Your task to perform on an android device: Search for a 3d printer on aliexpress Image 0: 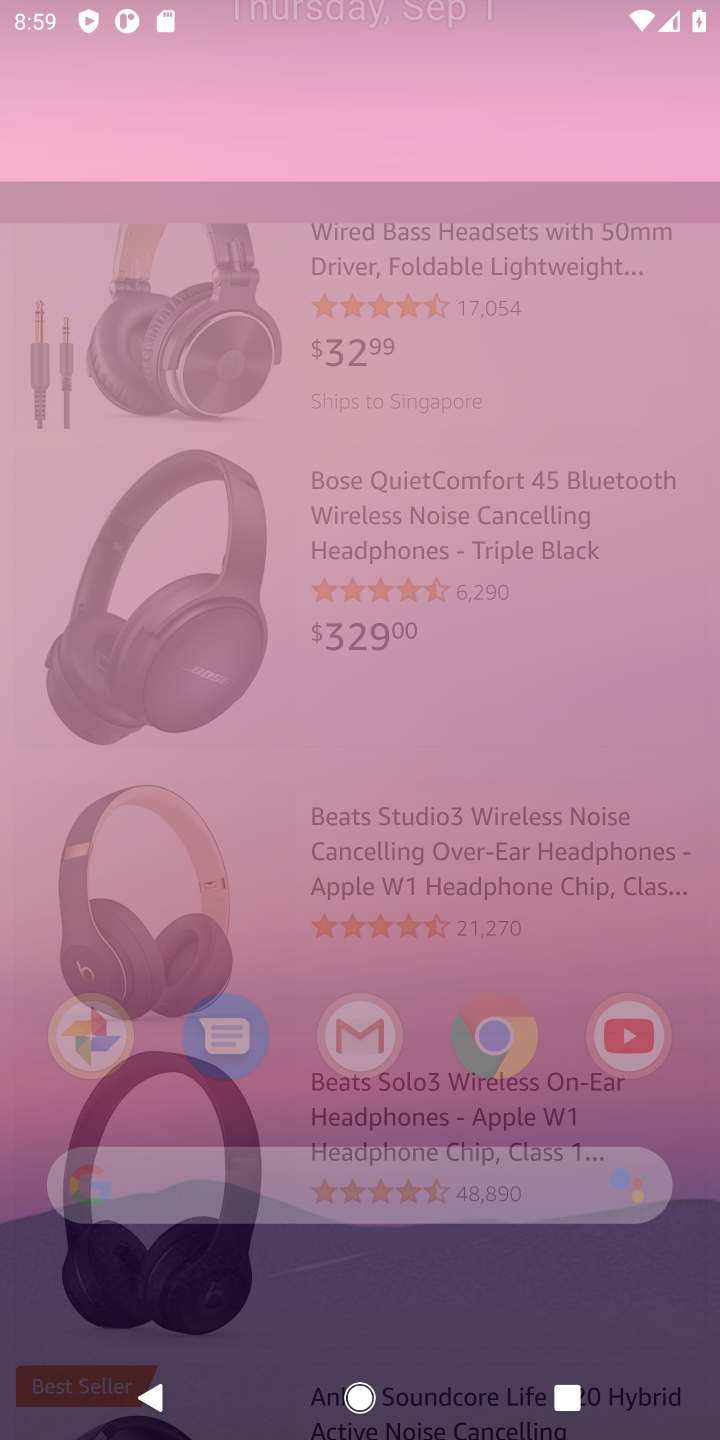
Step 0: press home button
Your task to perform on an android device: Search for a 3d printer on aliexpress Image 1: 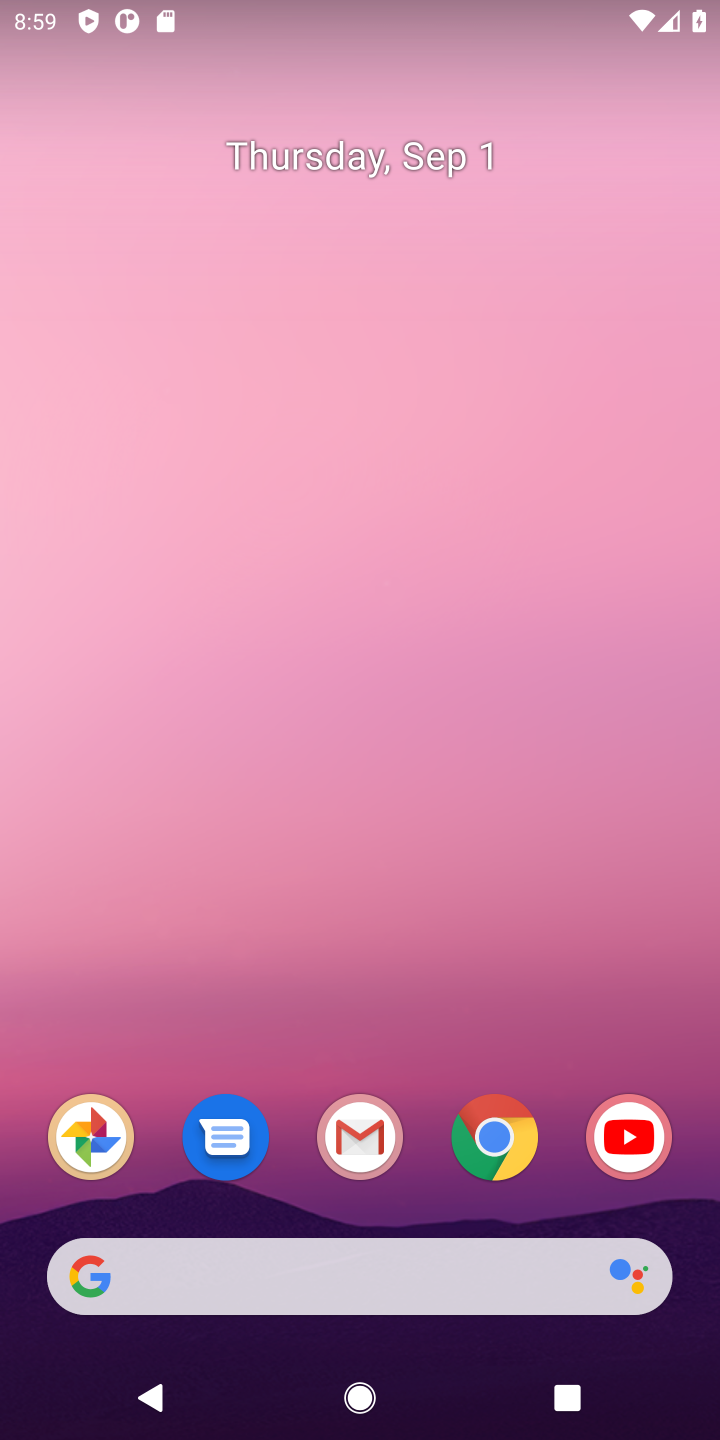
Step 1: drag from (427, 1096) to (353, 0)
Your task to perform on an android device: Search for a 3d printer on aliexpress Image 2: 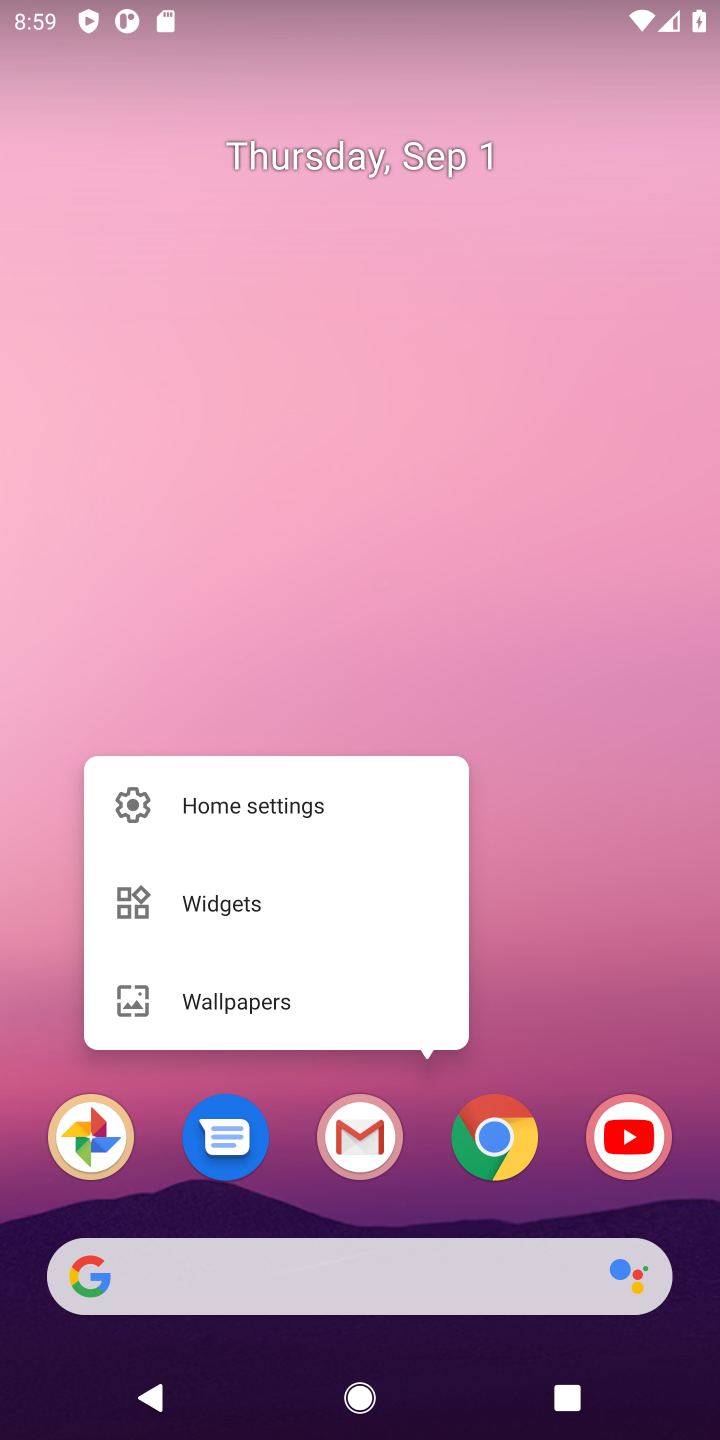
Step 2: drag from (564, 949) to (572, 151)
Your task to perform on an android device: Search for a 3d printer on aliexpress Image 3: 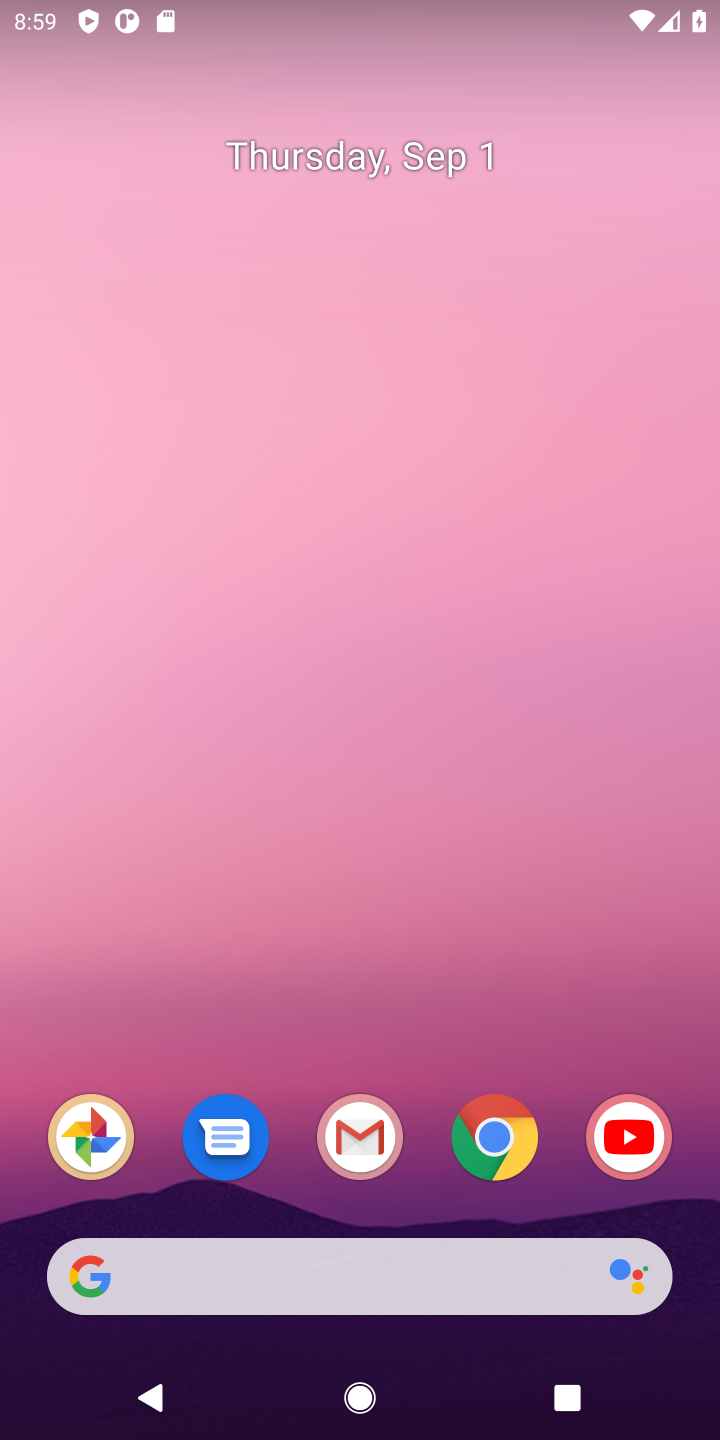
Step 3: drag from (438, 984) to (432, 6)
Your task to perform on an android device: Search for a 3d printer on aliexpress Image 4: 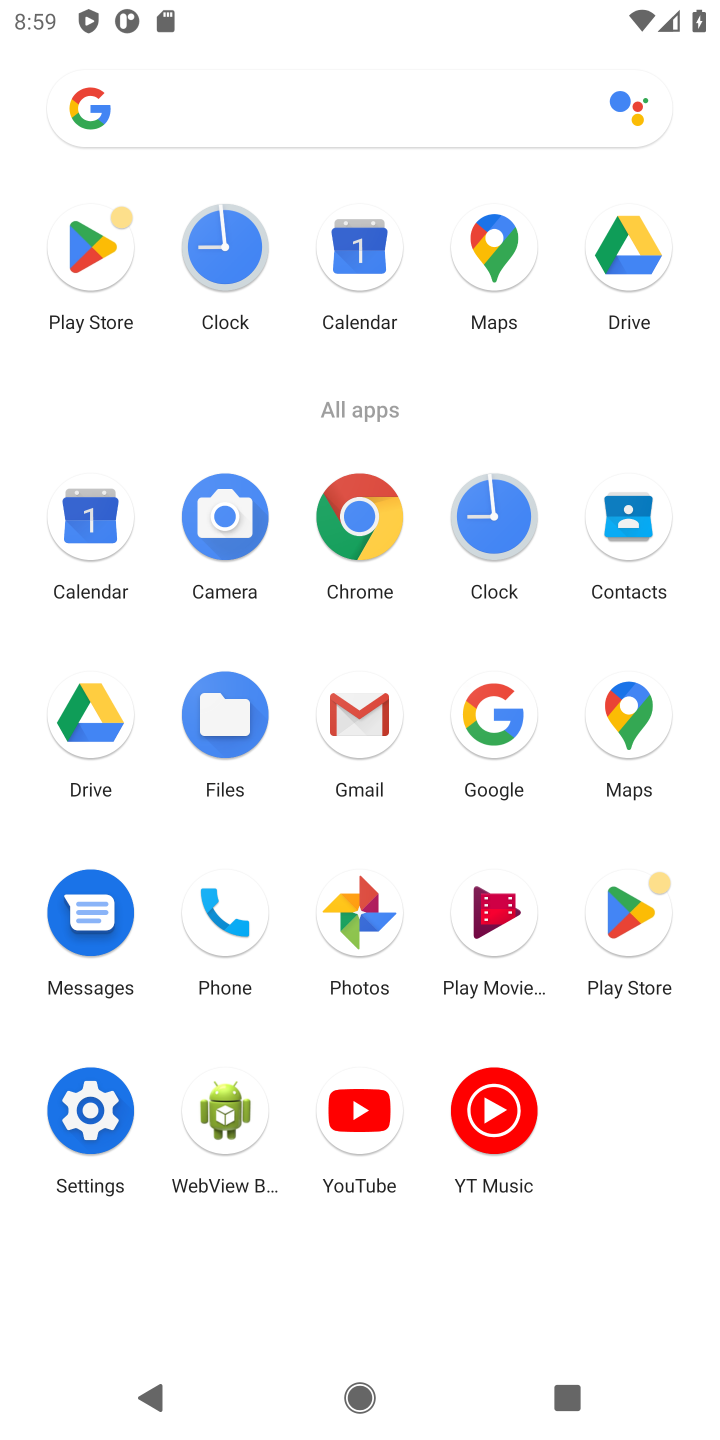
Step 4: click (349, 504)
Your task to perform on an android device: Search for a 3d printer on aliexpress Image 5: 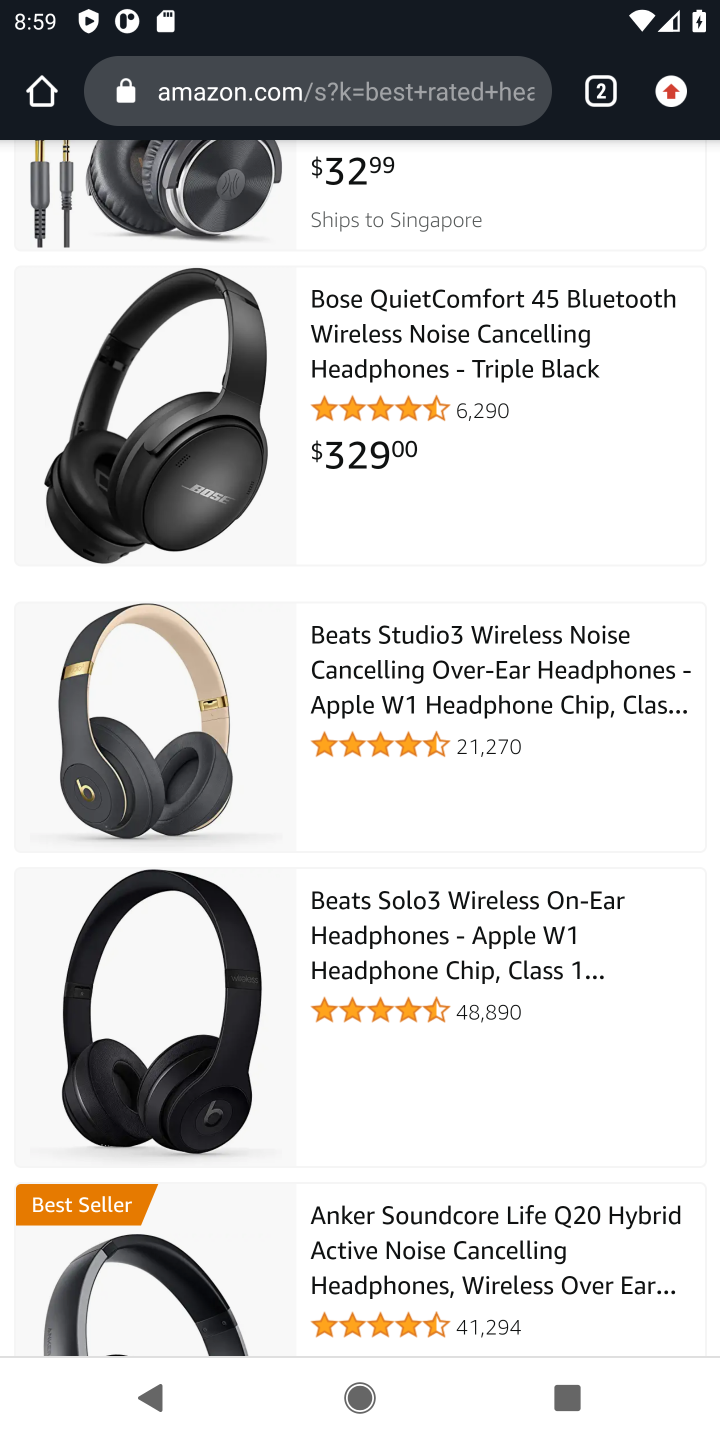
Step 5: click (318, 93)
Your task to perform on an android device: Search for a 3d printer on aliexpress Image 6: 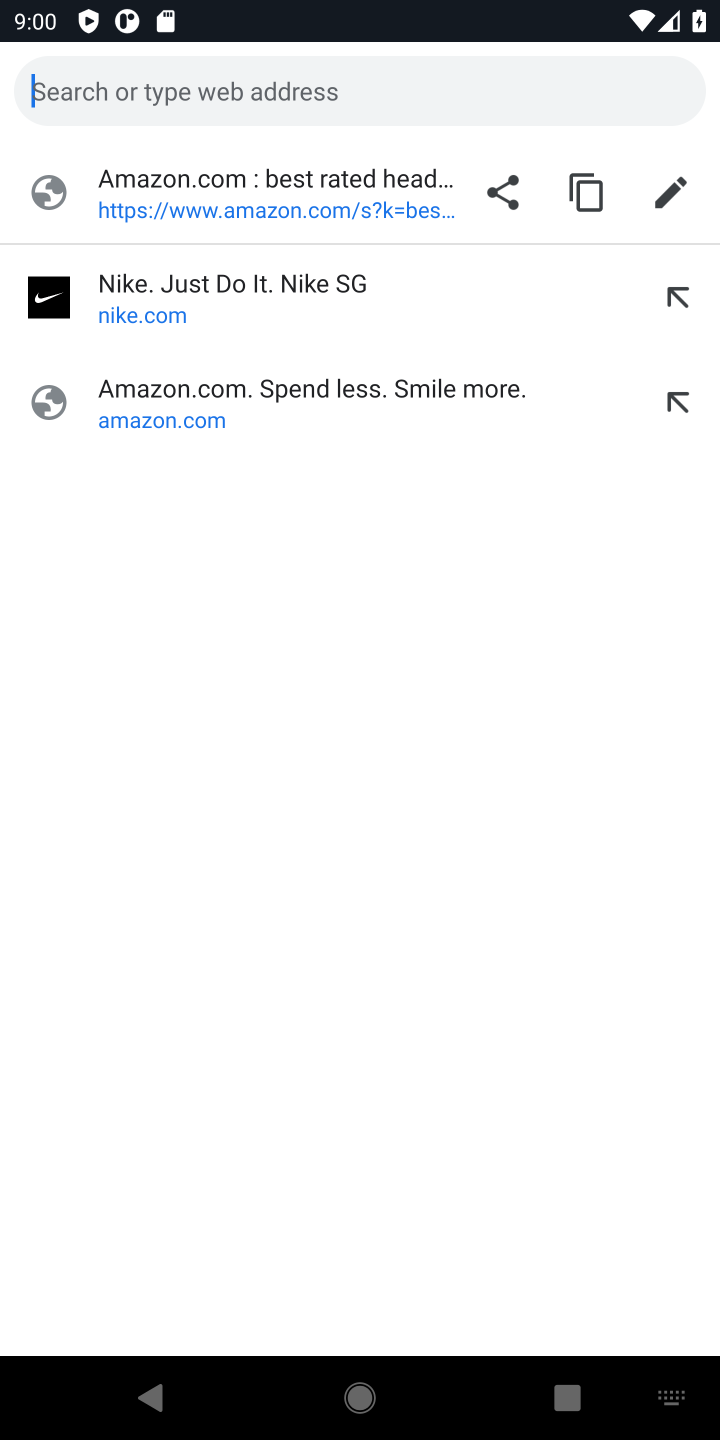
Step 6: type "aliexpress"
Your task to perform on an android device: Search for a 3d printer on aliexpress Image 7: 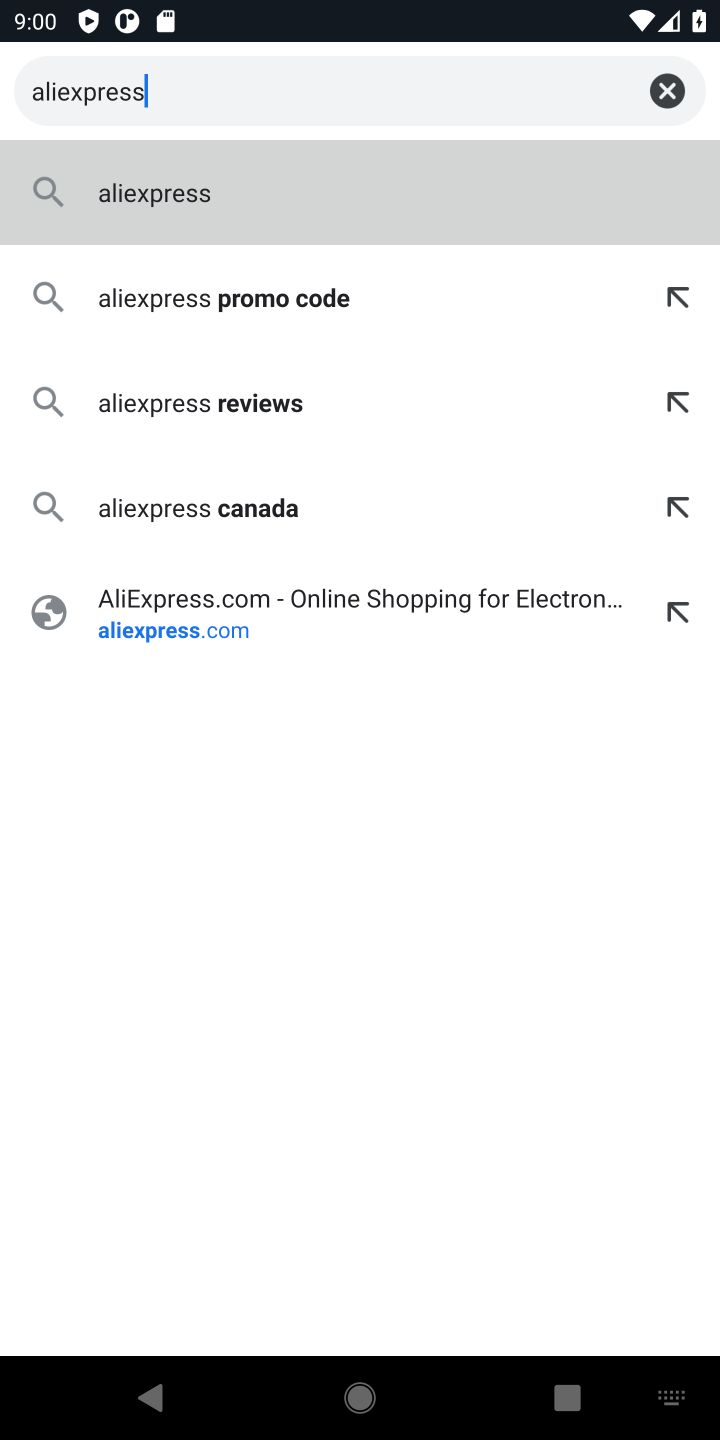
Step 7: click (242, 613)
Your task to perform on an android device: Search for a 3d printer on aliexpress Image 8: 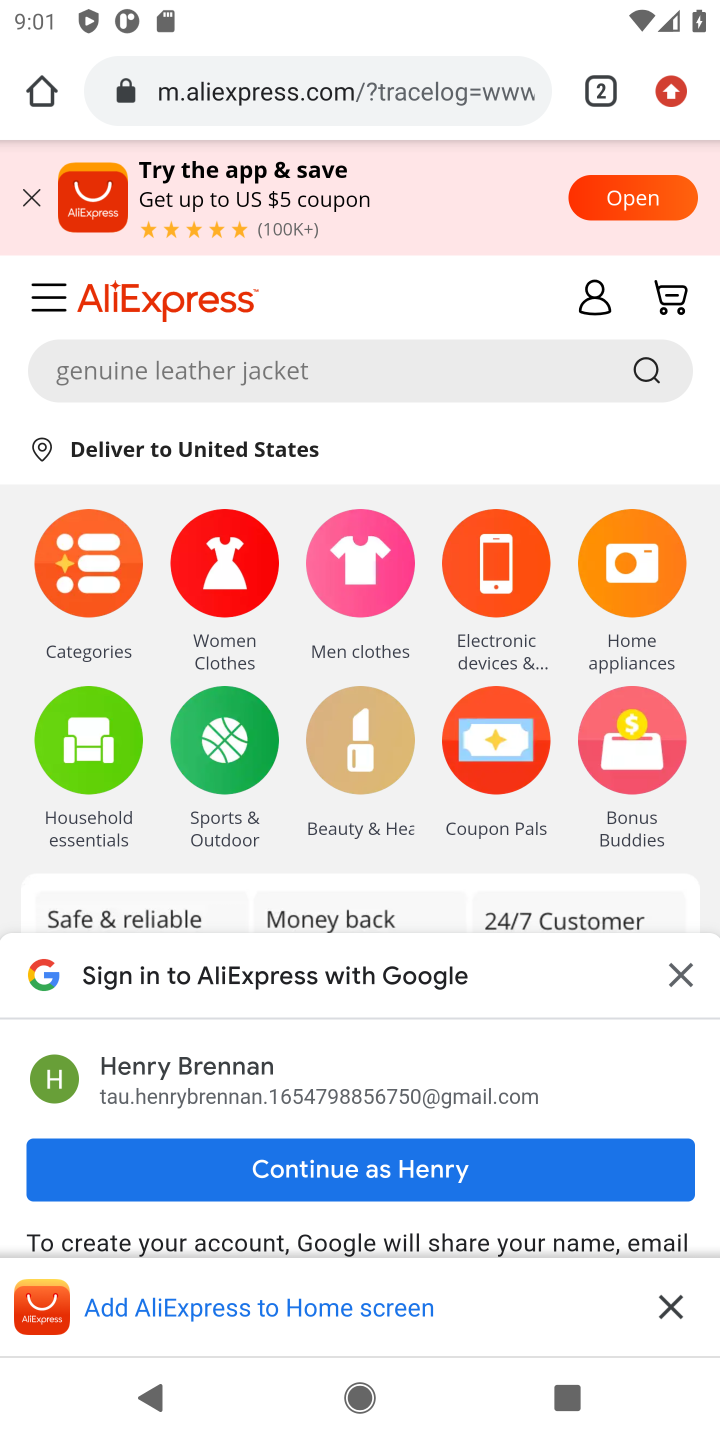
Step 8: click (638, 356)
Your task to perform on an android device: Search for a 3d printer on aliexpress Image 9: 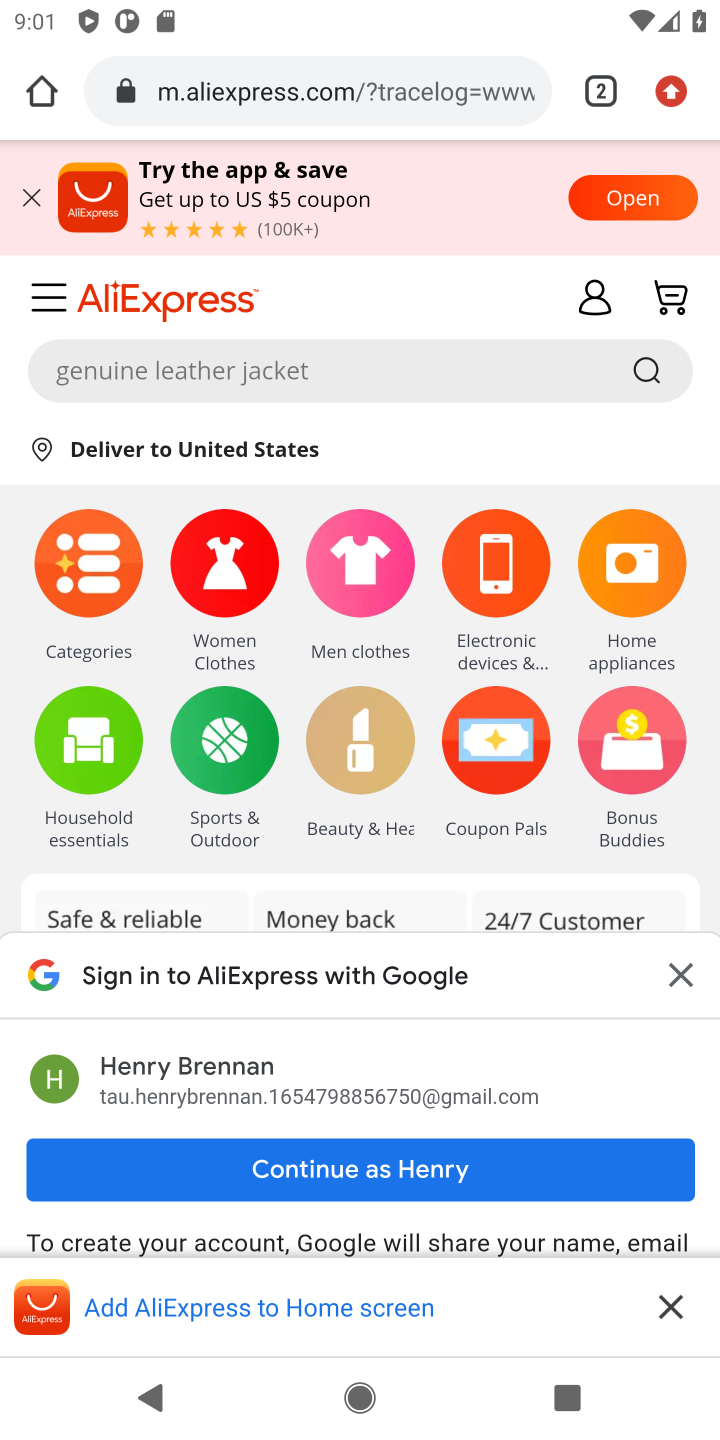
Step 9: click (674, 966)
Your task to perform on an android device: Search for a 3d printer on aliexpress Image 10: 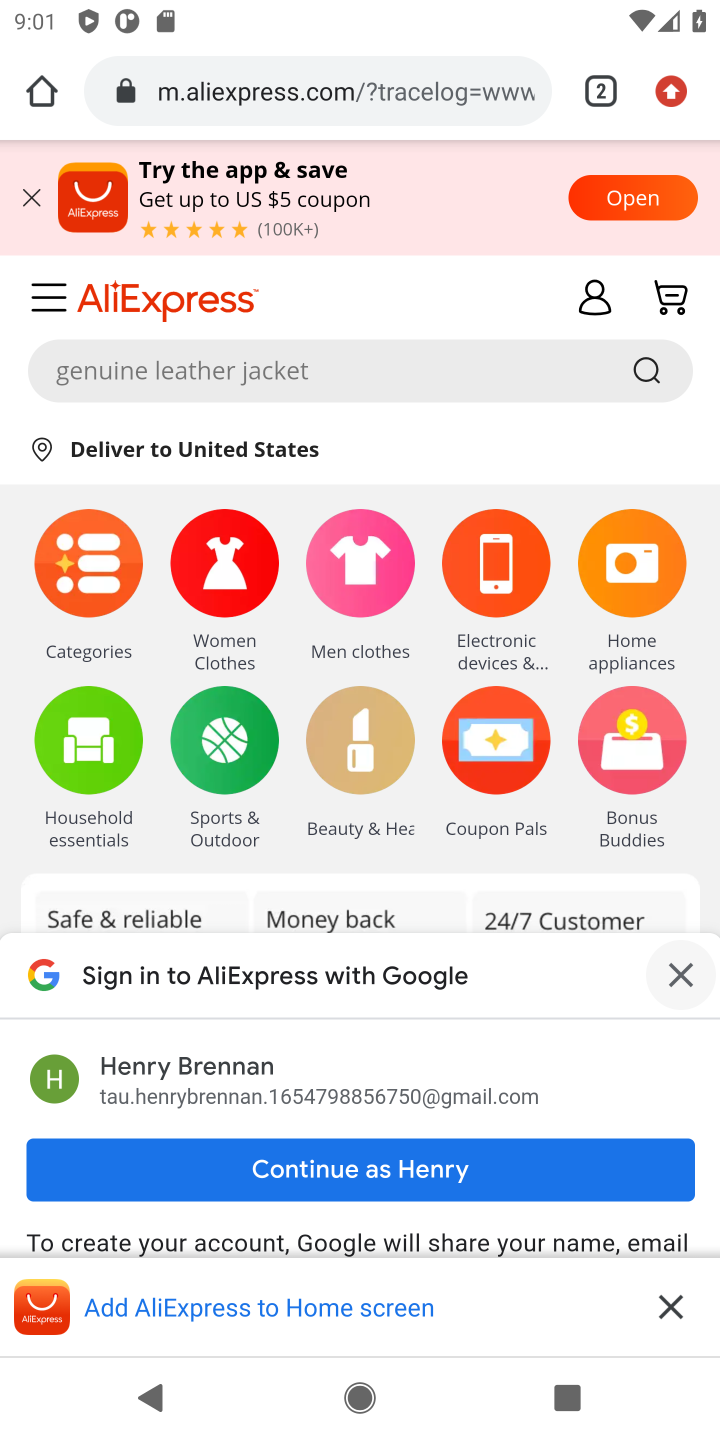
Step 10: click (137, 359)
Your task to perform on an android device: Search for a 3d printer on aliexpress Image 11: 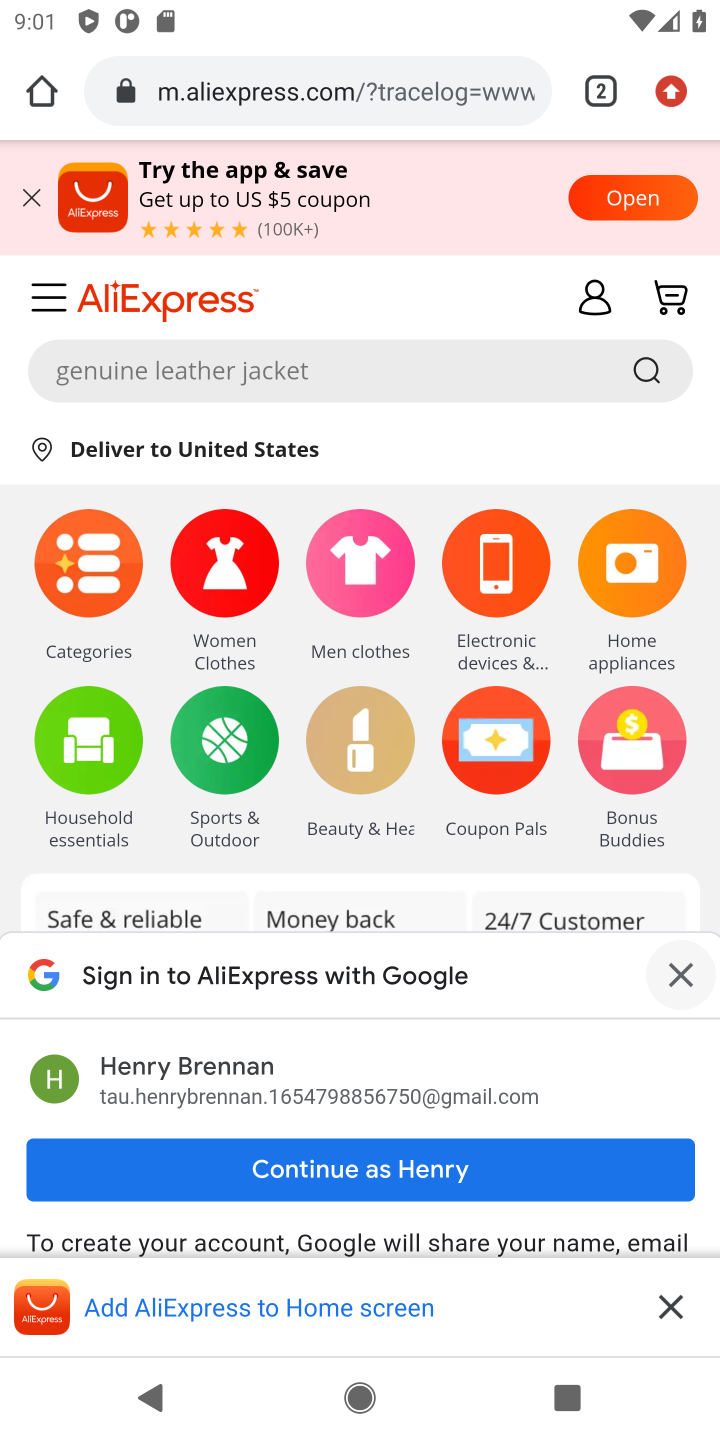
Step 11: click (634, 379)
Your task to perform on an android device: Search for a 3d printer on aliexpress Image 12: 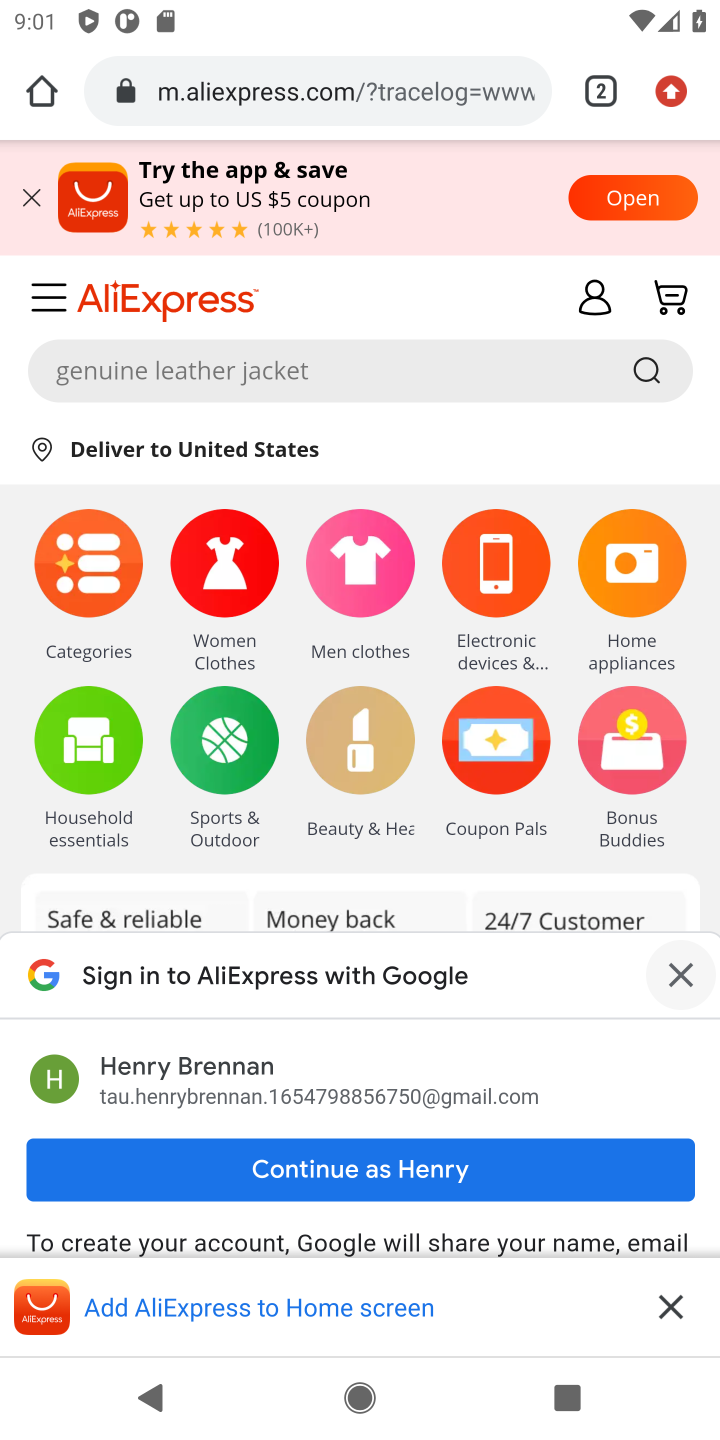
Step 12: click (131, 370)
Your task to perform on an android device: Search for a 3d printer on aliexpress Image 13: 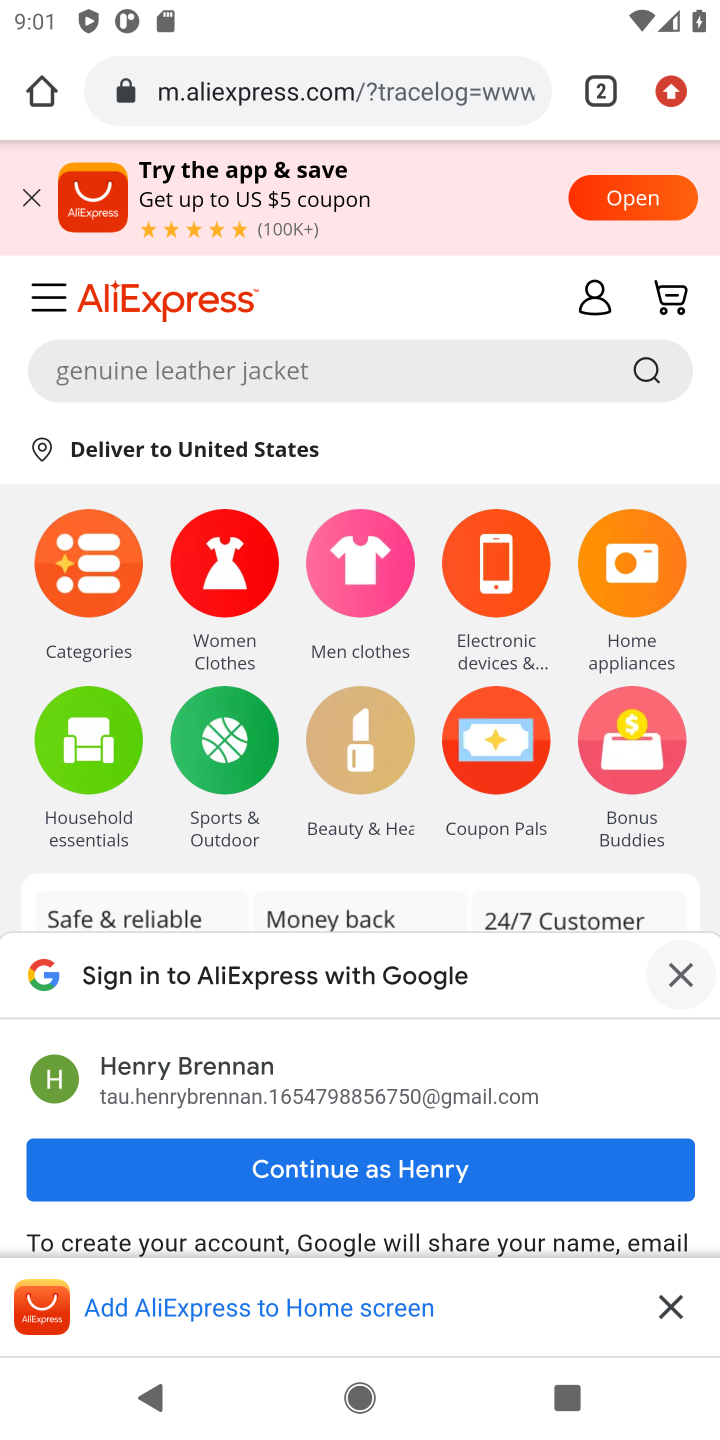
Step 13: click (671, 974)
Your task to perform on an android device: Search for a 3d printer on aliexpress Image 14: 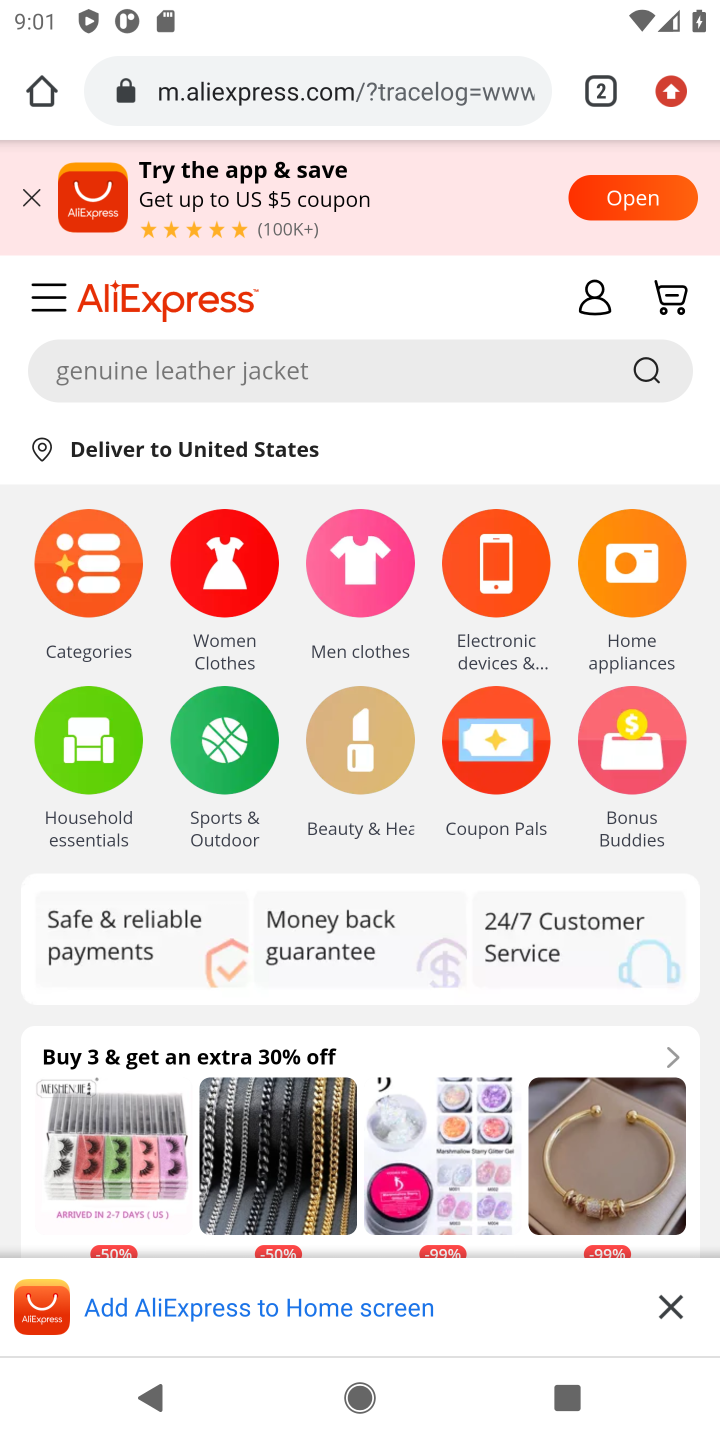
Step 14: drag from (392, 1031) to (414, 445)
Your task to perform on an android device: Search for a 3d printer on aliexpress Image 15: 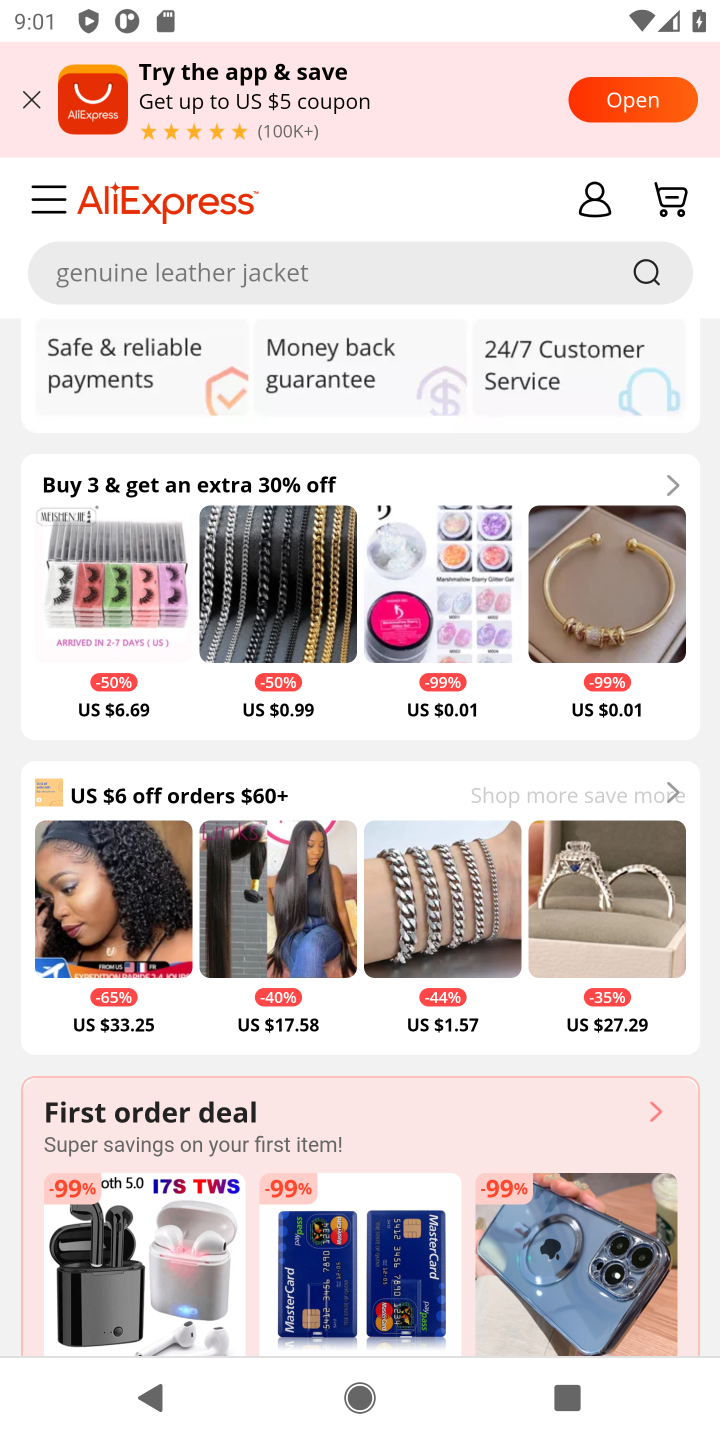
Step 15: click (640, 259)
Your task to perform on an android device: Search for a 3d printer on aliexpress Image 16: 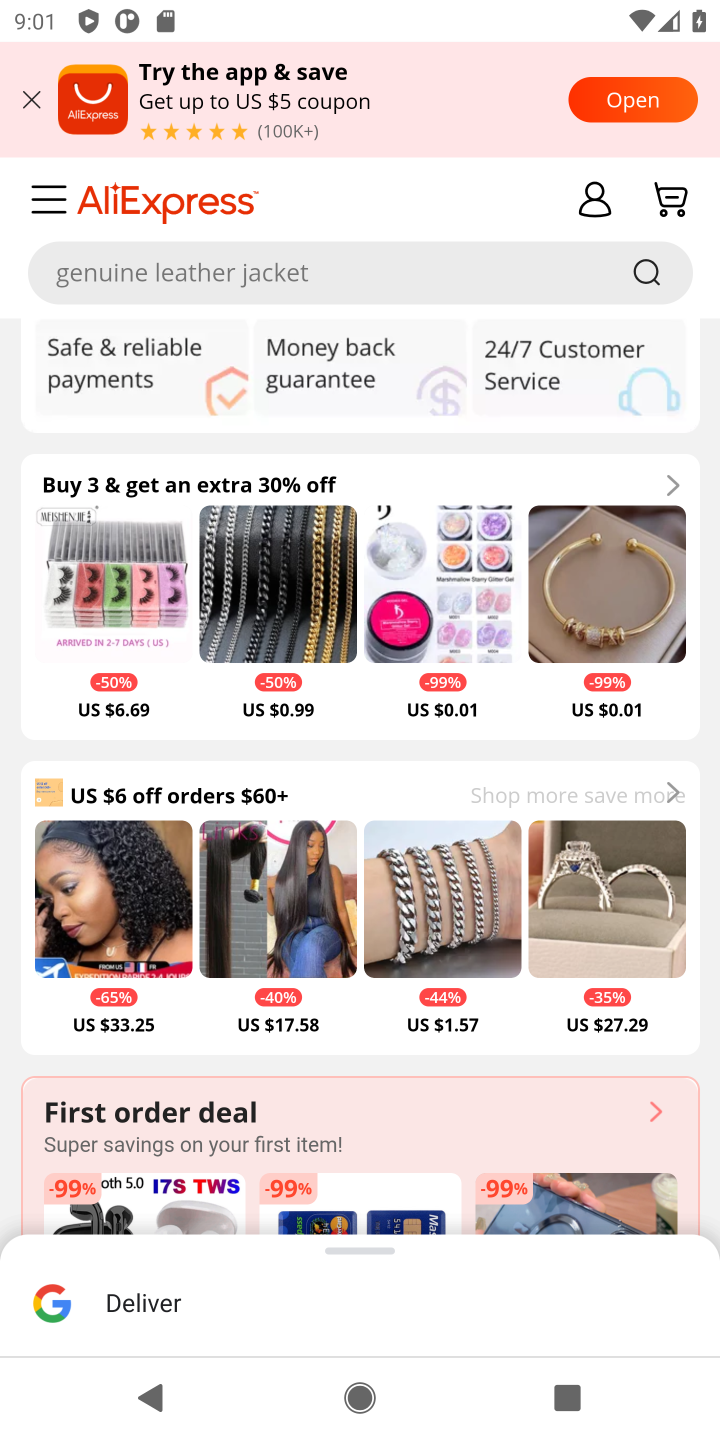
Step 16: click (180, 266)
Your task to perform on an android device: Search for a 3d printer on aliexpress Image 17: 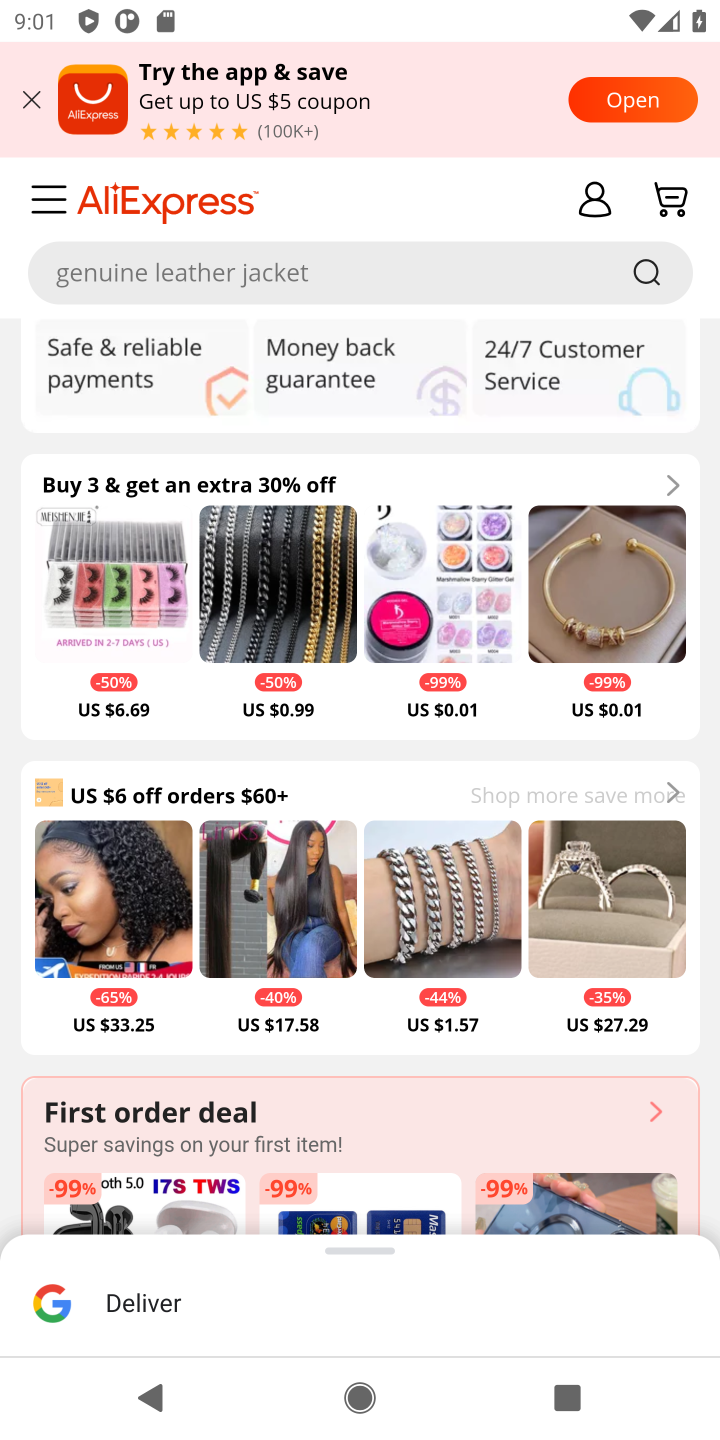
Step 17: click (144, 266)
Your task to perform on an android device: Search for a 3d printer on aliexpress Image 18: 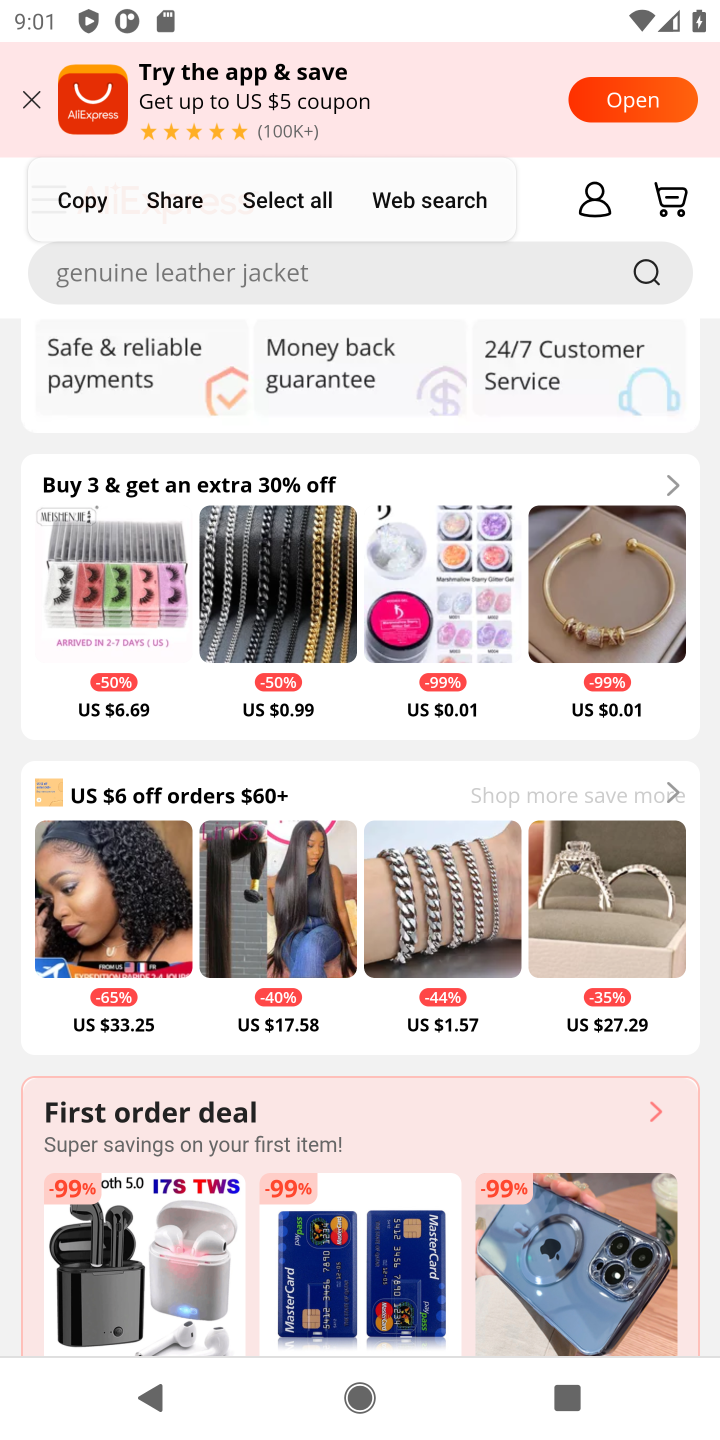
Step 18: click (338, 262)
Your task to perform on an android device: Search for a 3d printer on aliexpress Image 19: 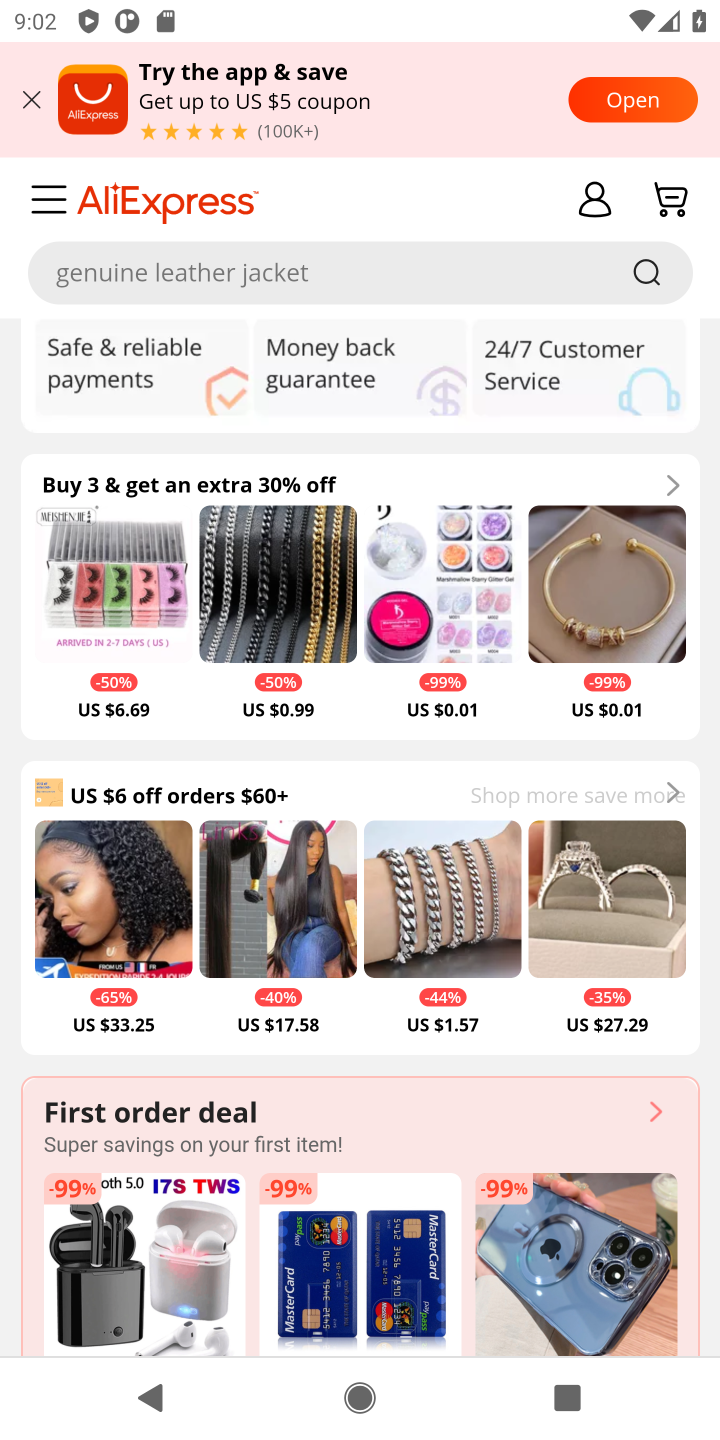
Step 19: drag from (401, 243) to (463, 772)
Your task to perform on an android device: Search for a 3d printer on aliexpress Image 20: 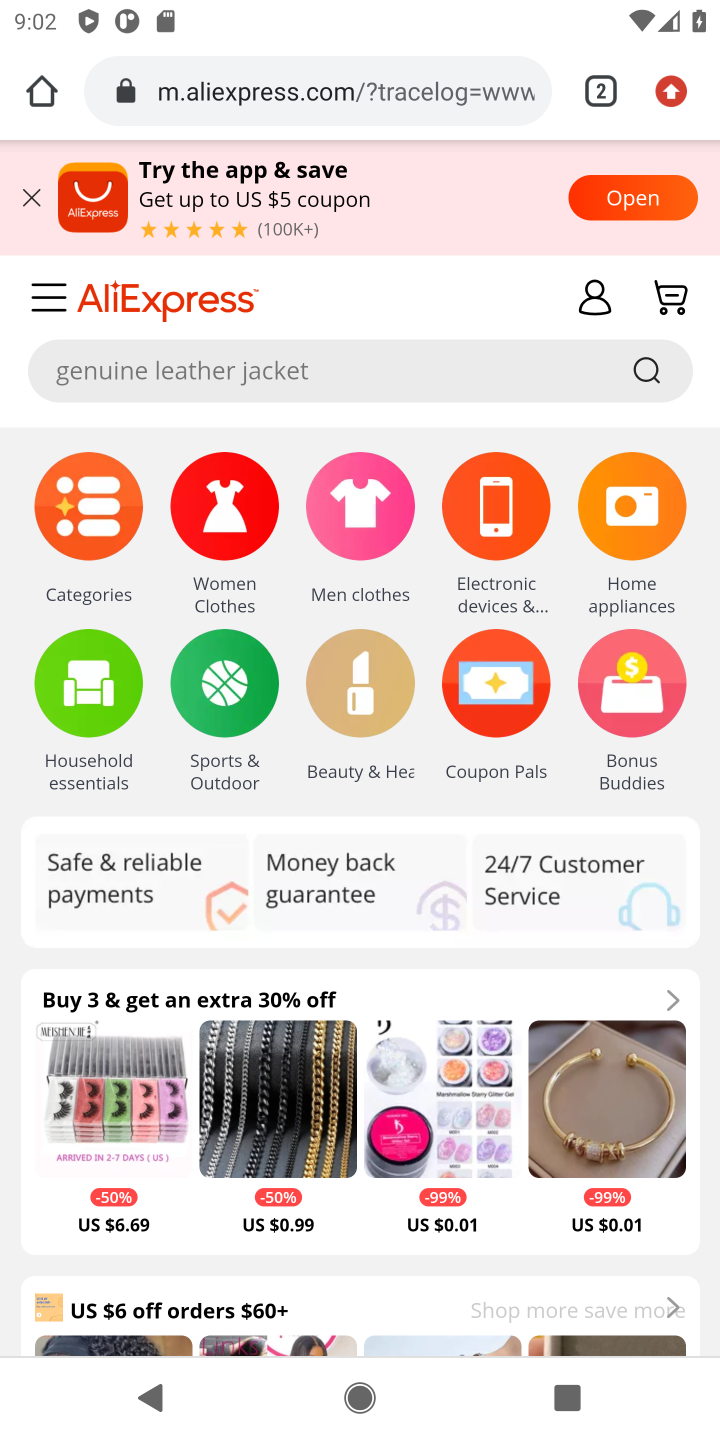
Step 20: click (283, 103)
Your task to perform on an android device: Search for a 3d printer on aliexpress Image 21: 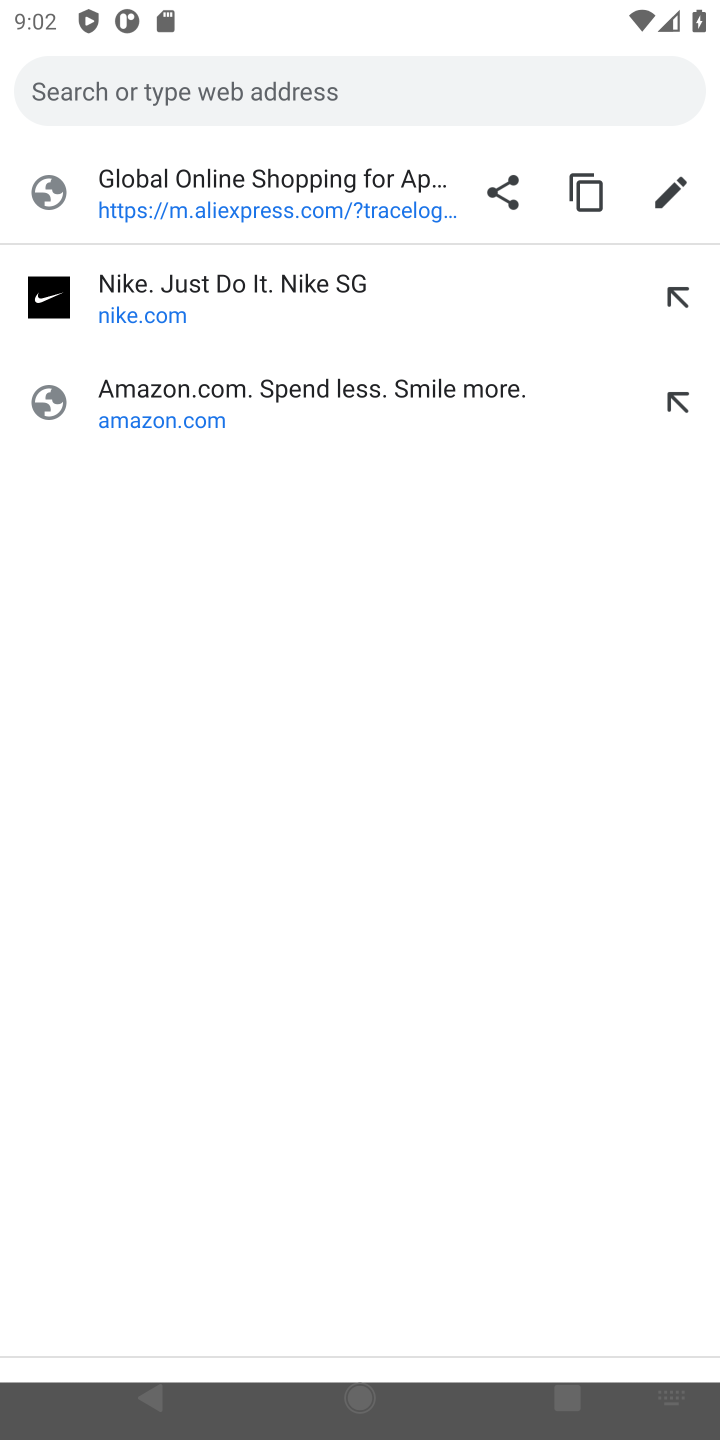
Step 21: click (343, 84)
Your task to perform on an android device: Search for a 3d printer on aliexpress Image 22: 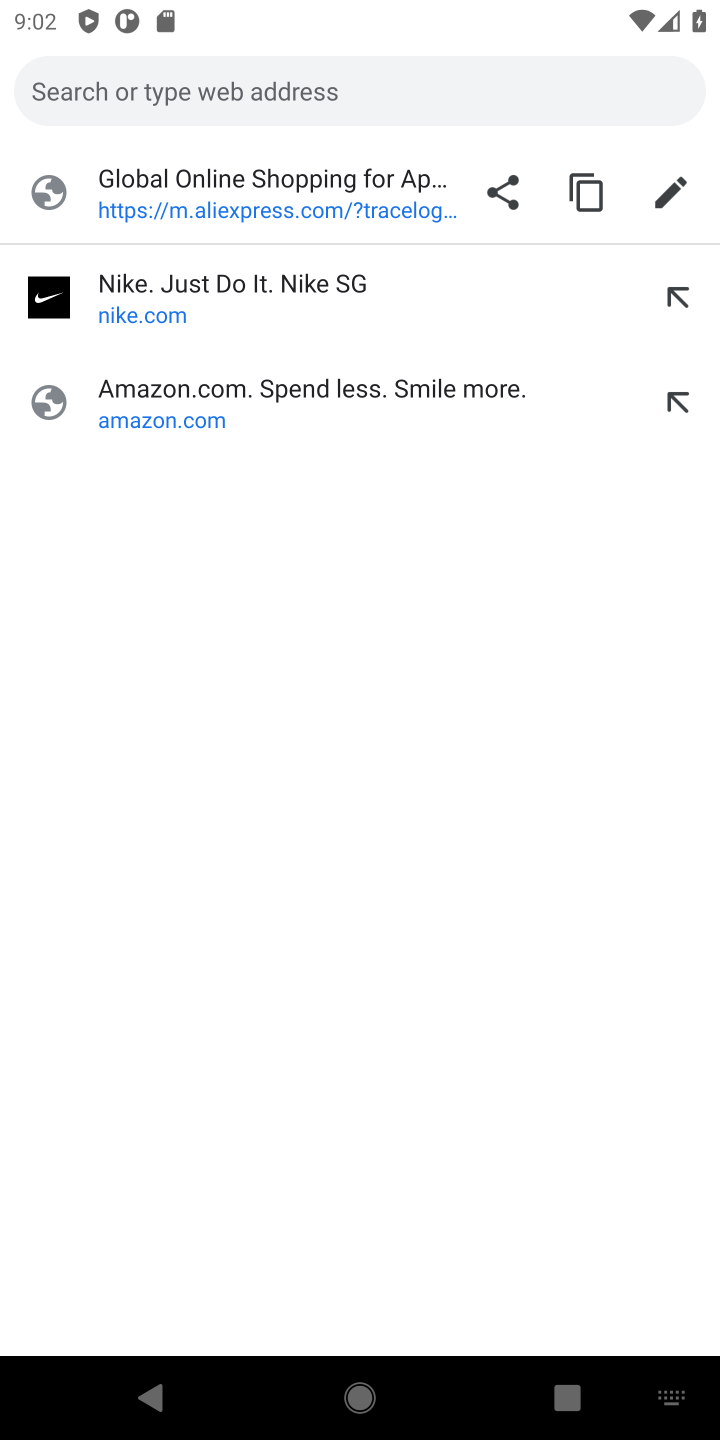
Step 22: type "3d printer on aliexpress"
Your task to perform on an android device: Search for a 3d printer on aliexpress Image 23: 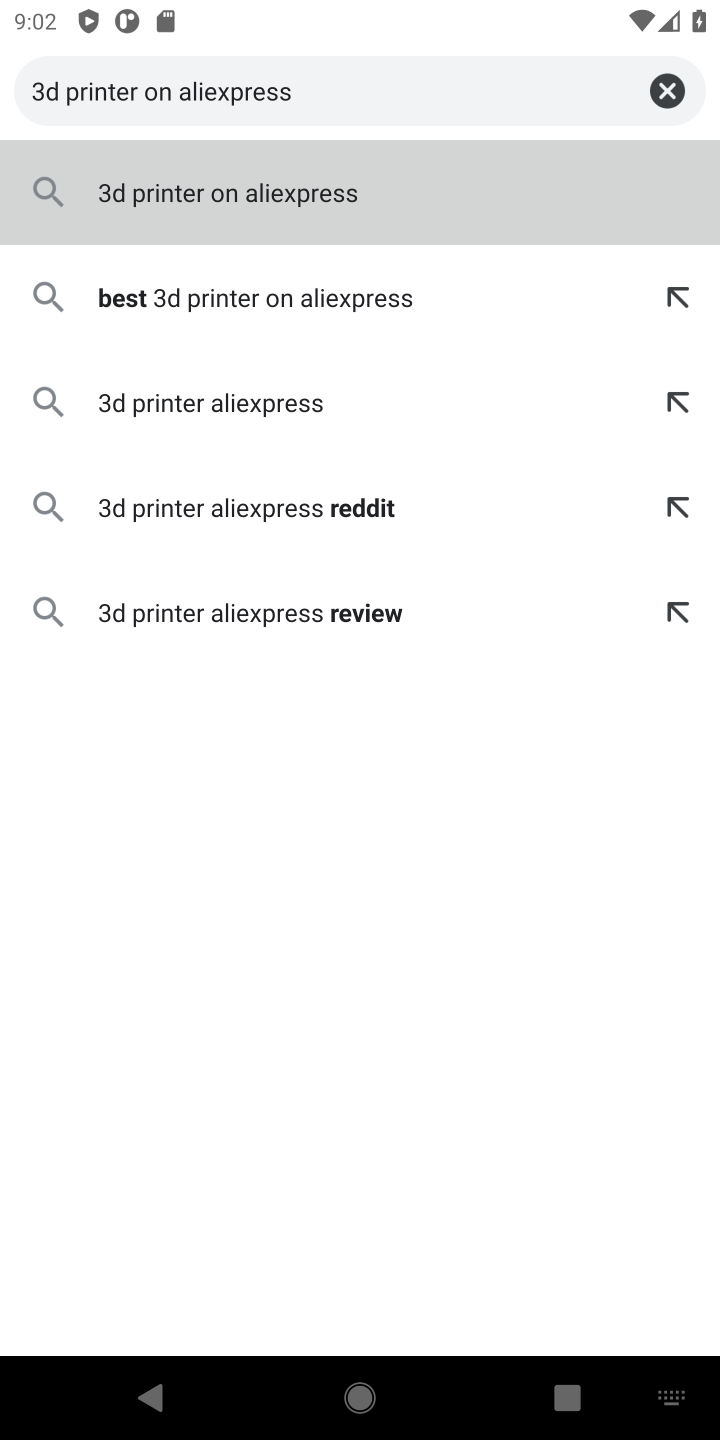
Step 23: click (146, 88)
Your task to perform on an android device: Search for a 3d printer on aliexpress Image 24: 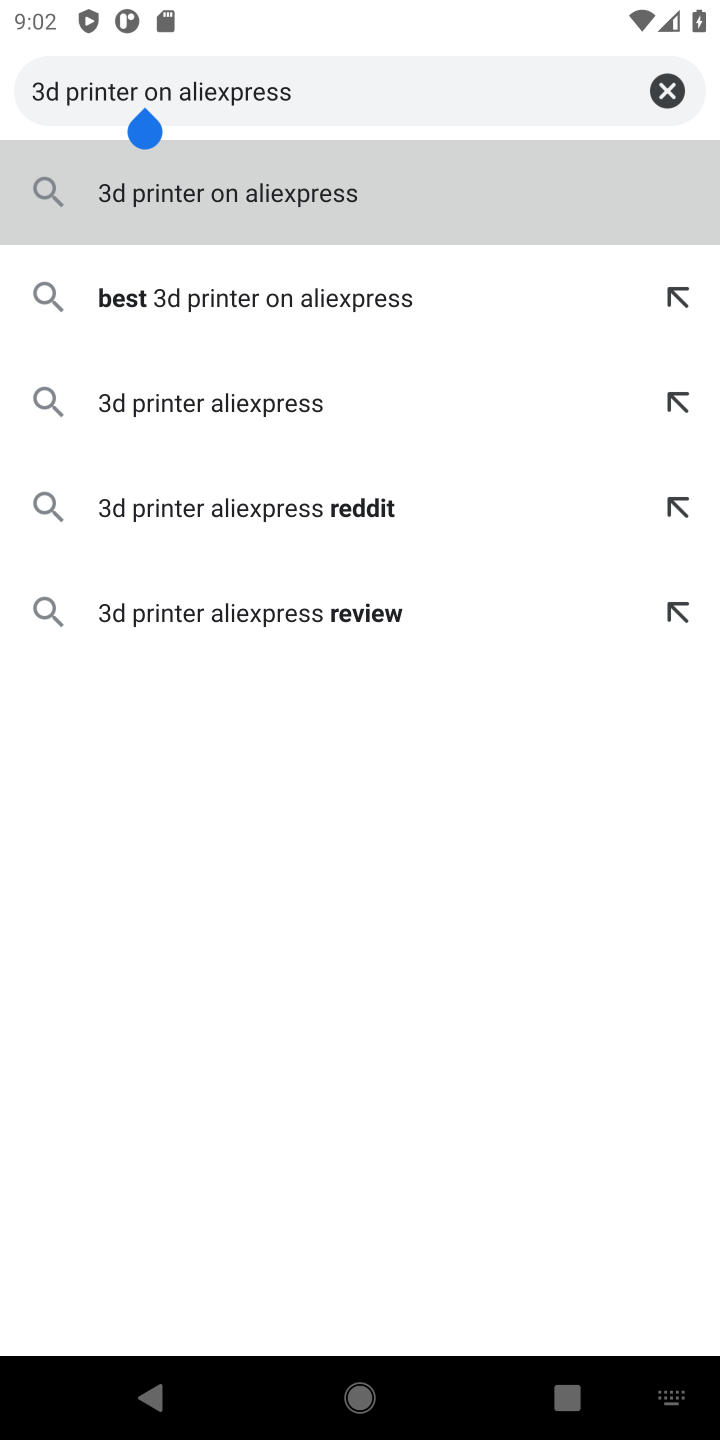
Step 24: click (241, 193)
Your task to perform on an android device: Search for a 3d printer on aliexpress Image 25: 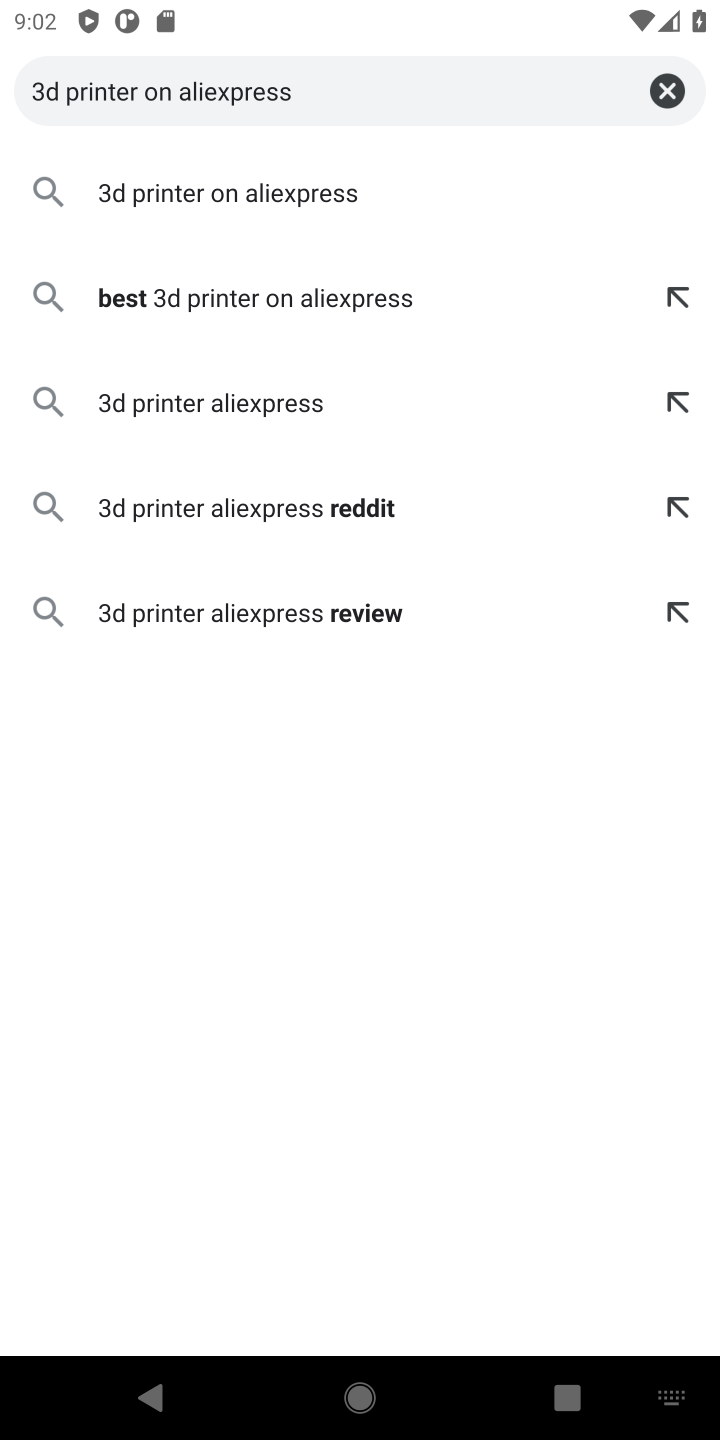
Step 25: click (219, 192)
Your task to perform on an android device: Search for a 3d printer on aliexpress Image 26: 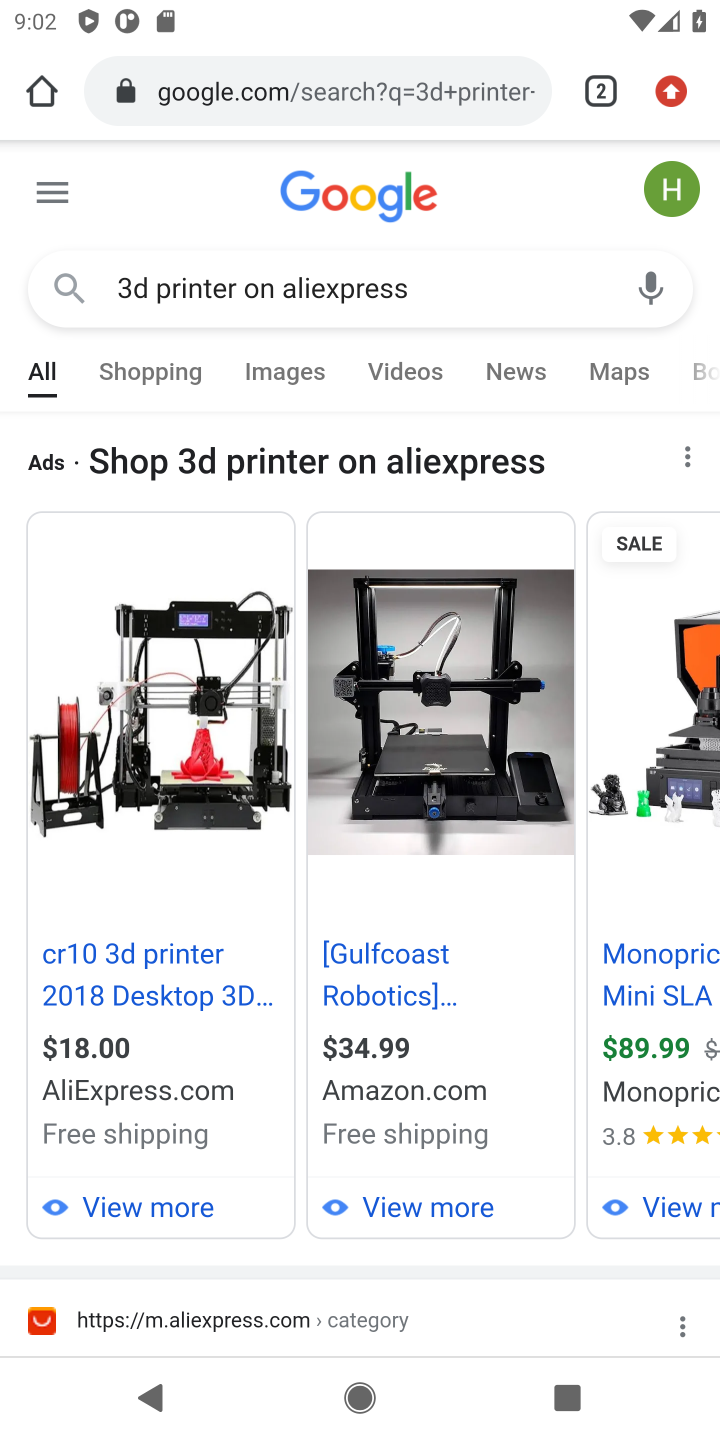
Step 26: drag from (293, 1063) to (317, 409)
Your task to perform on an android device: Search for a 3d printer on aliexpress Image 27: 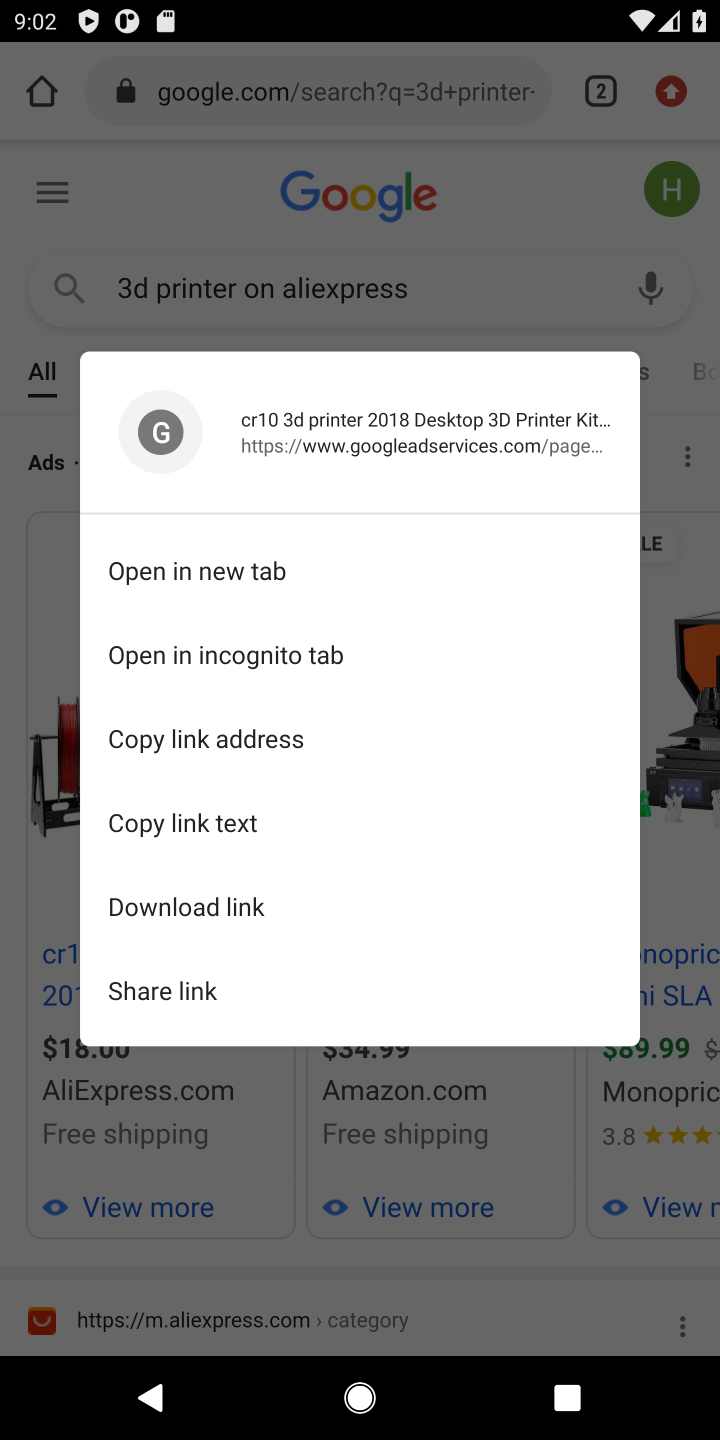
Step 27: click (51, 643)
Your task to perform on an android device: Search for a 3d printer on aliexpress Image 28: 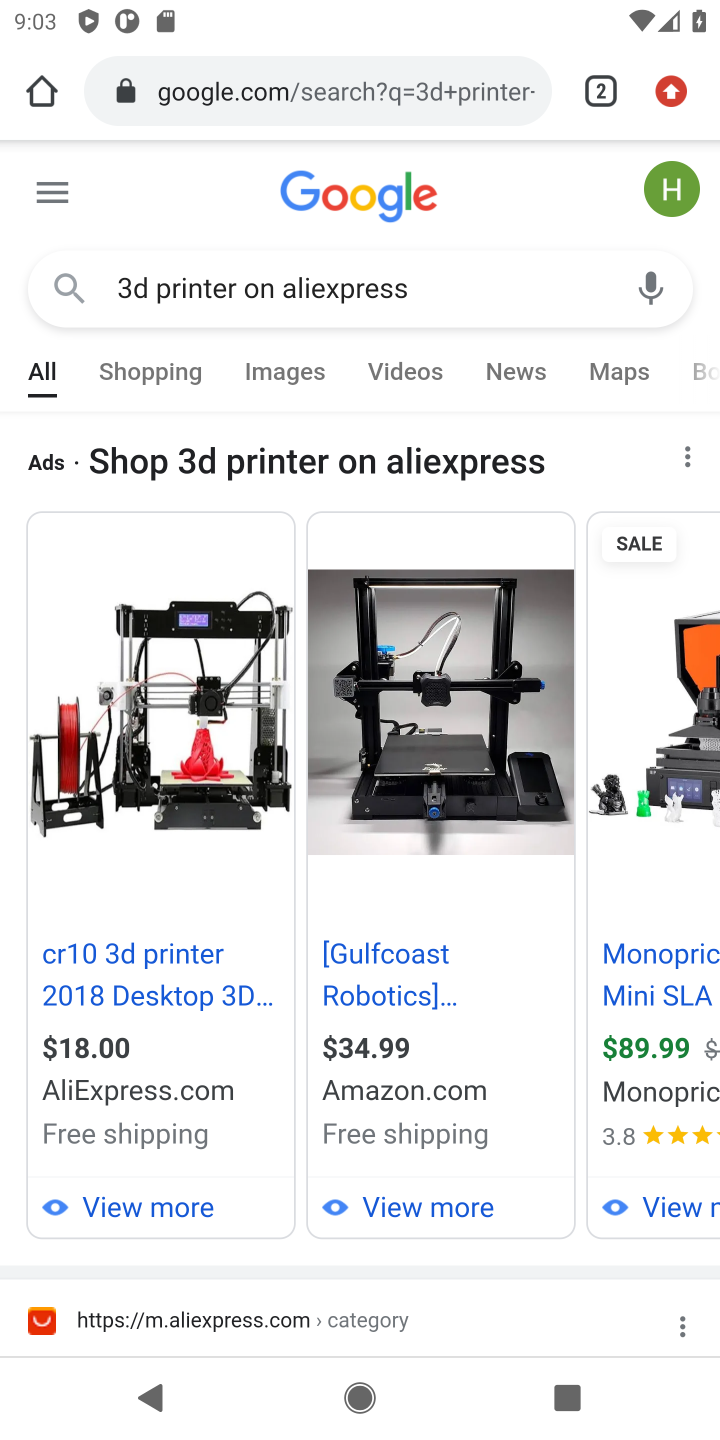
Step 28: drag from (444, 1270) to (458, 512)
Your task to perform on an android device: Search for a 3d printer on aliexpress Image 29: 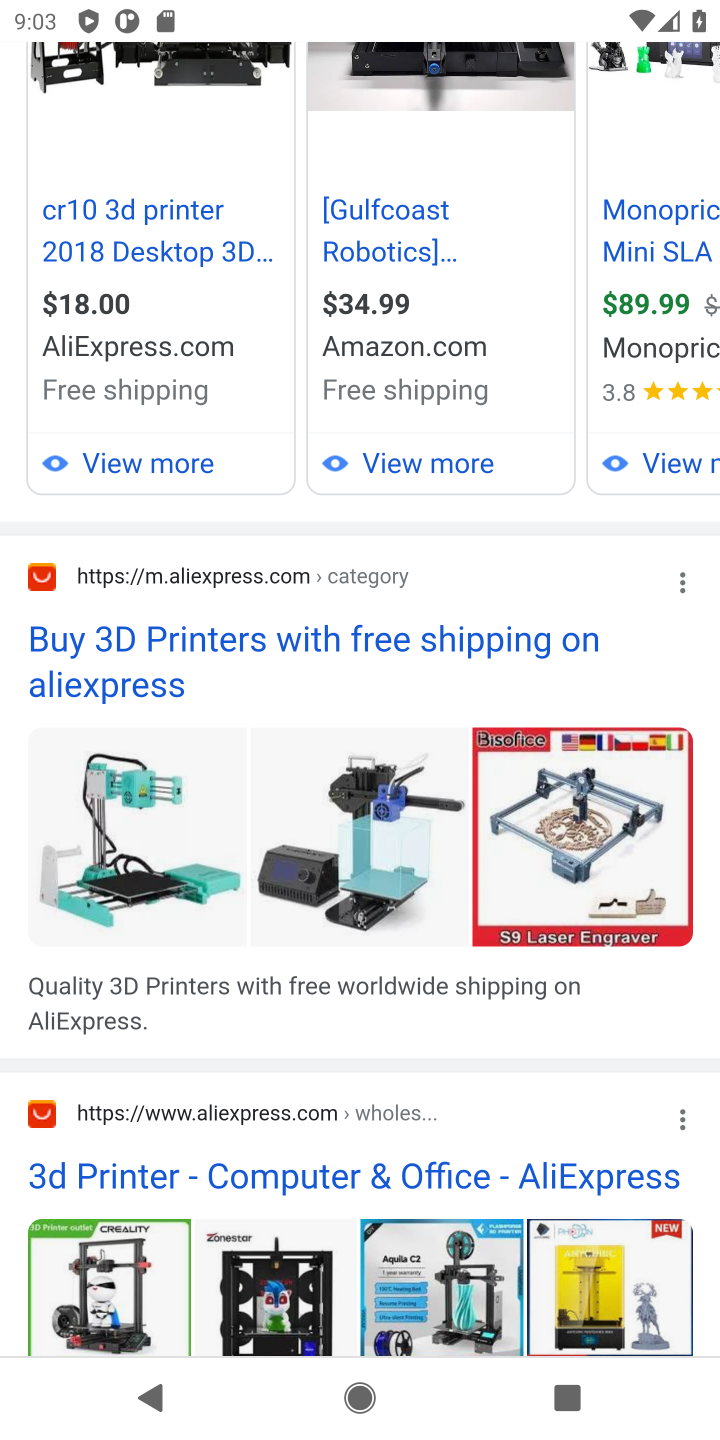
Step 29: click (247, 640)
Your task to perform on an android device: Search for a 3d printer on aliexpress Image 30: 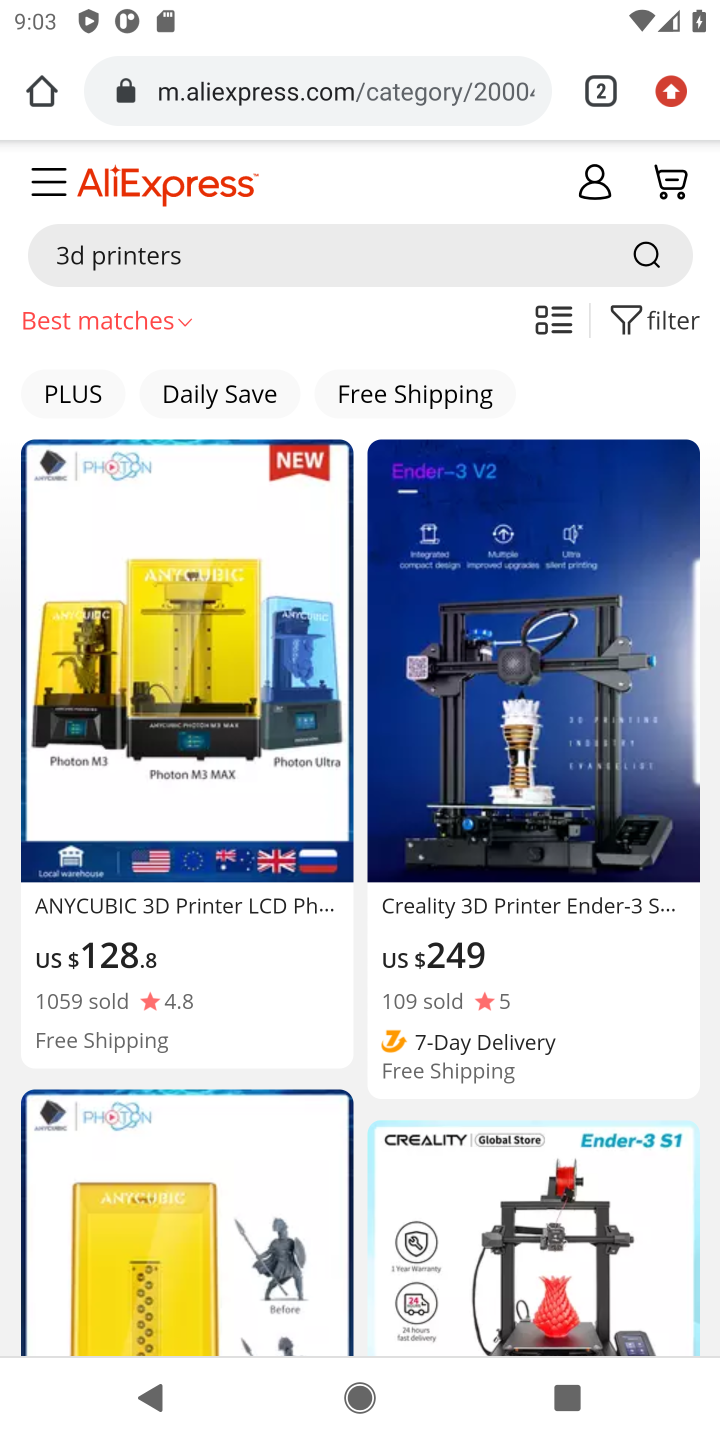
Step 30: drag from (371, 863) to (394, 439)
Your task to perform on an android device: Search for a 3d printer on aliexpress Image 31: 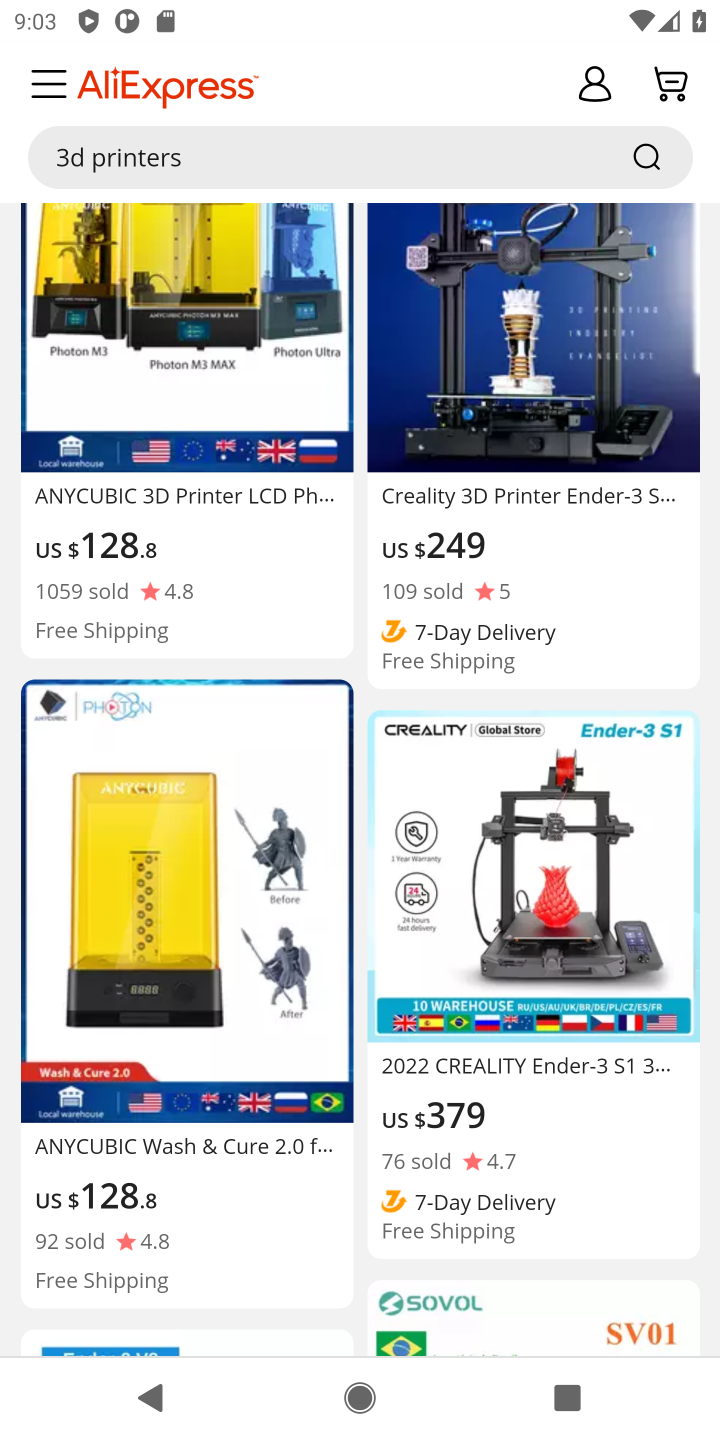
Step 31: drag from (389, 909) to (353, 381)
Your task to perform on an android device: Search for a 3d printer on aliexpress Image 32: 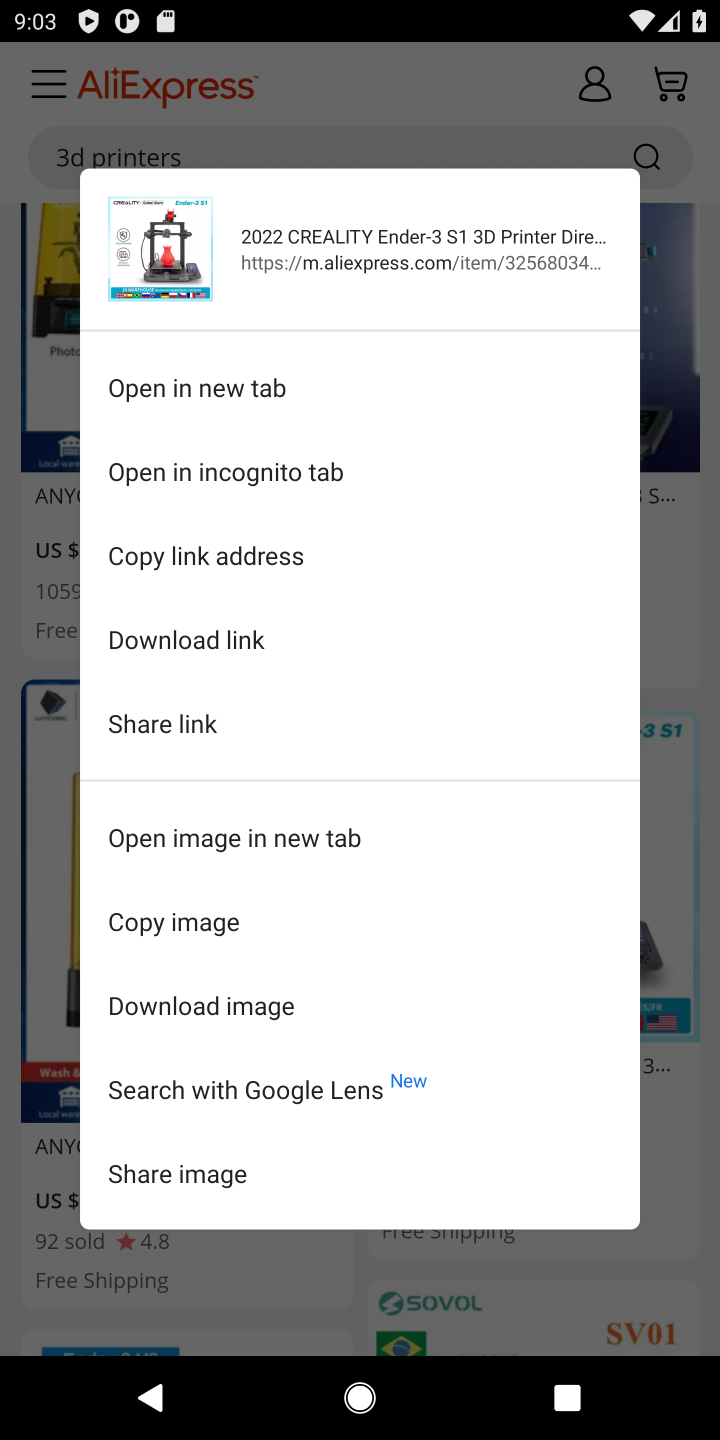
Step 32: click (33, 790)
Your task to perform on an android device: Search for a 3d printer on aliexpress Image 33: 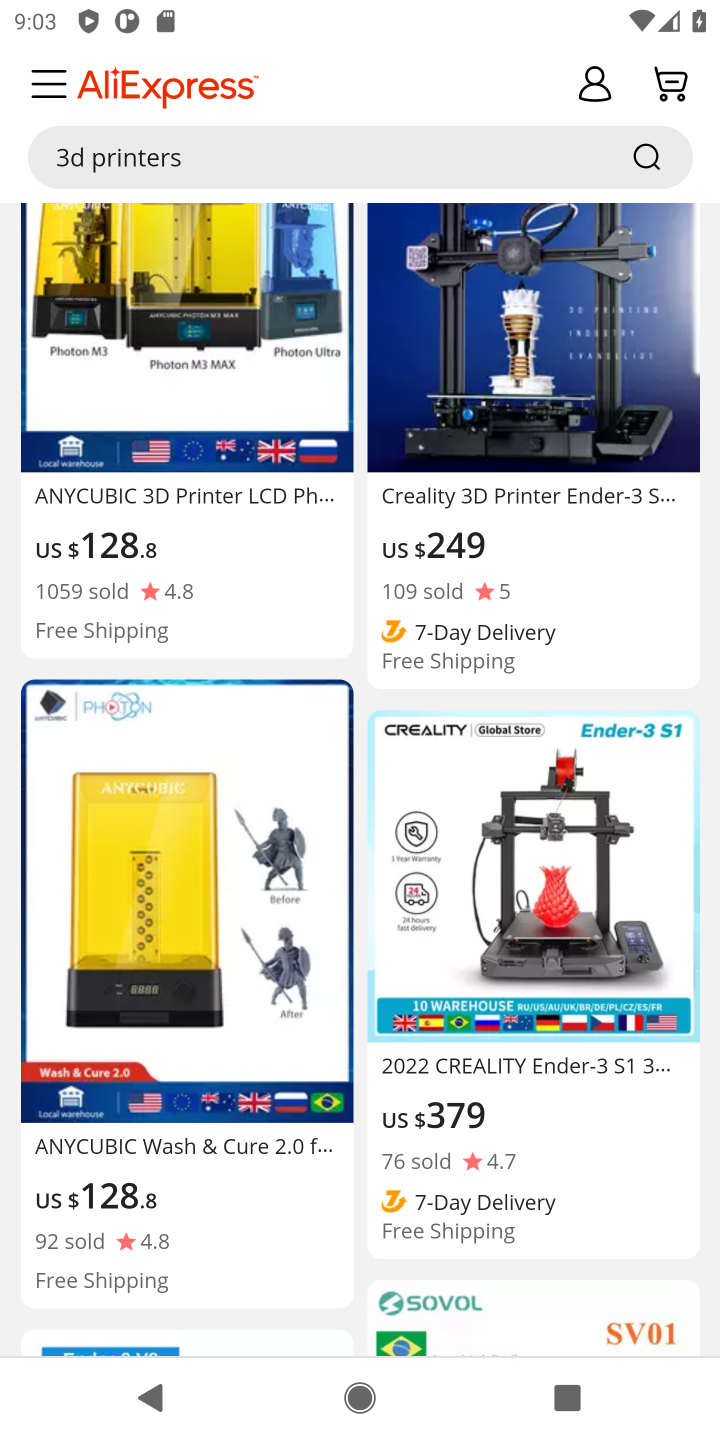
Step 33: task complete